Your task to perform on an android device: Clear all items from cart on ebay.com. Add dell alienware to the cart on ebay.com Image 0: 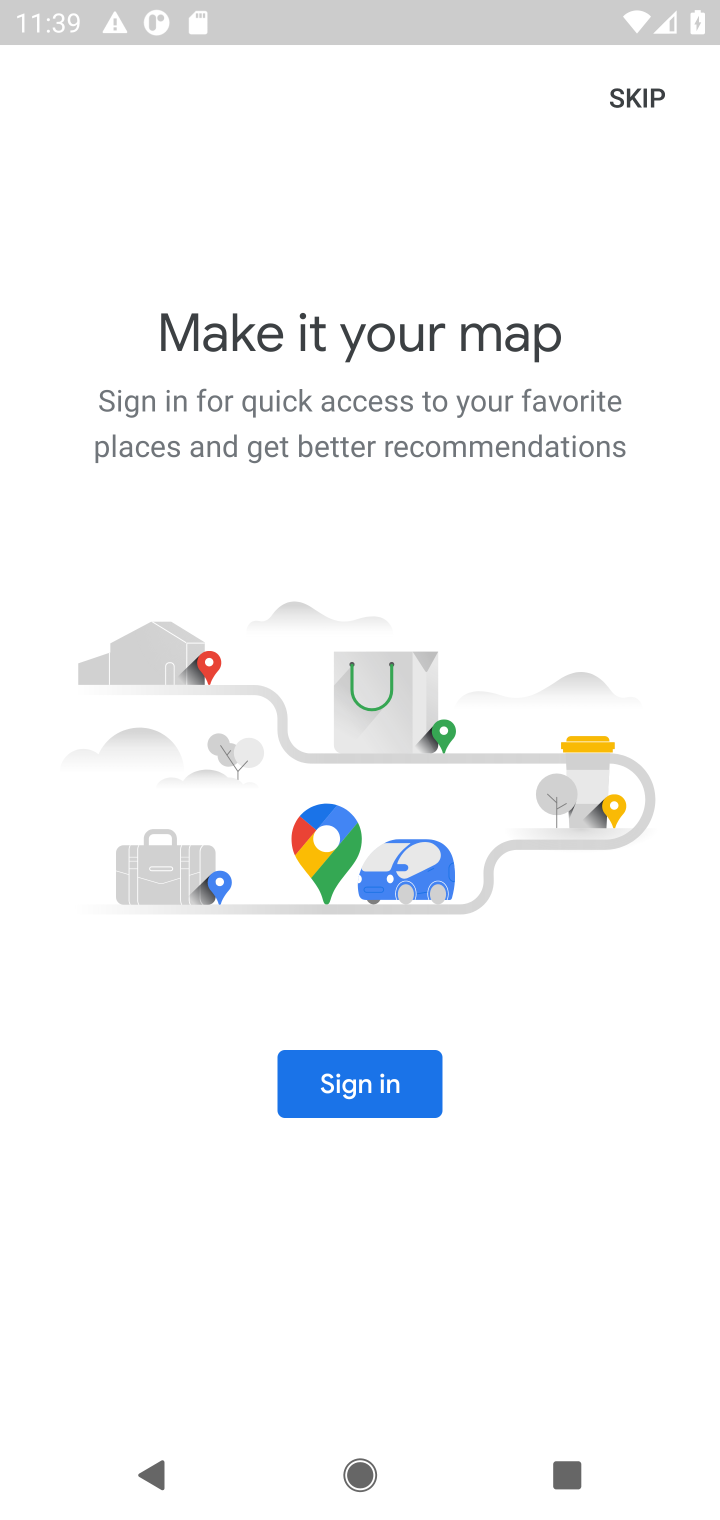
Step 0: press home button
Your task to perform on an android device: Clear all items from cart on ebay.com. Add dell alienware to the cart on ebay.com Image 1: 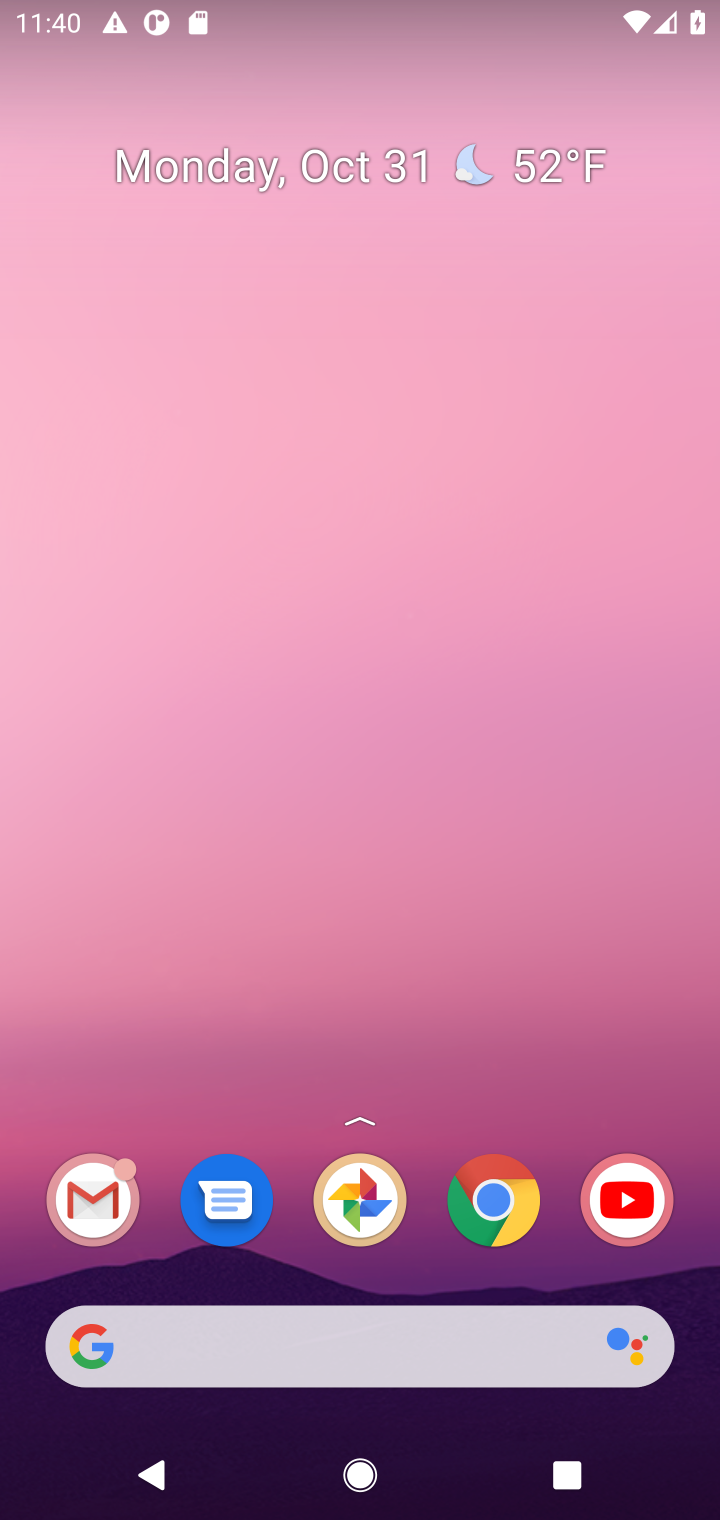
Step 1: click (506, 1201)
Your task to perform on an android device: Clear all items from cart on ebay.com. Add dell alienware to the cart on ebay.com Image 2: 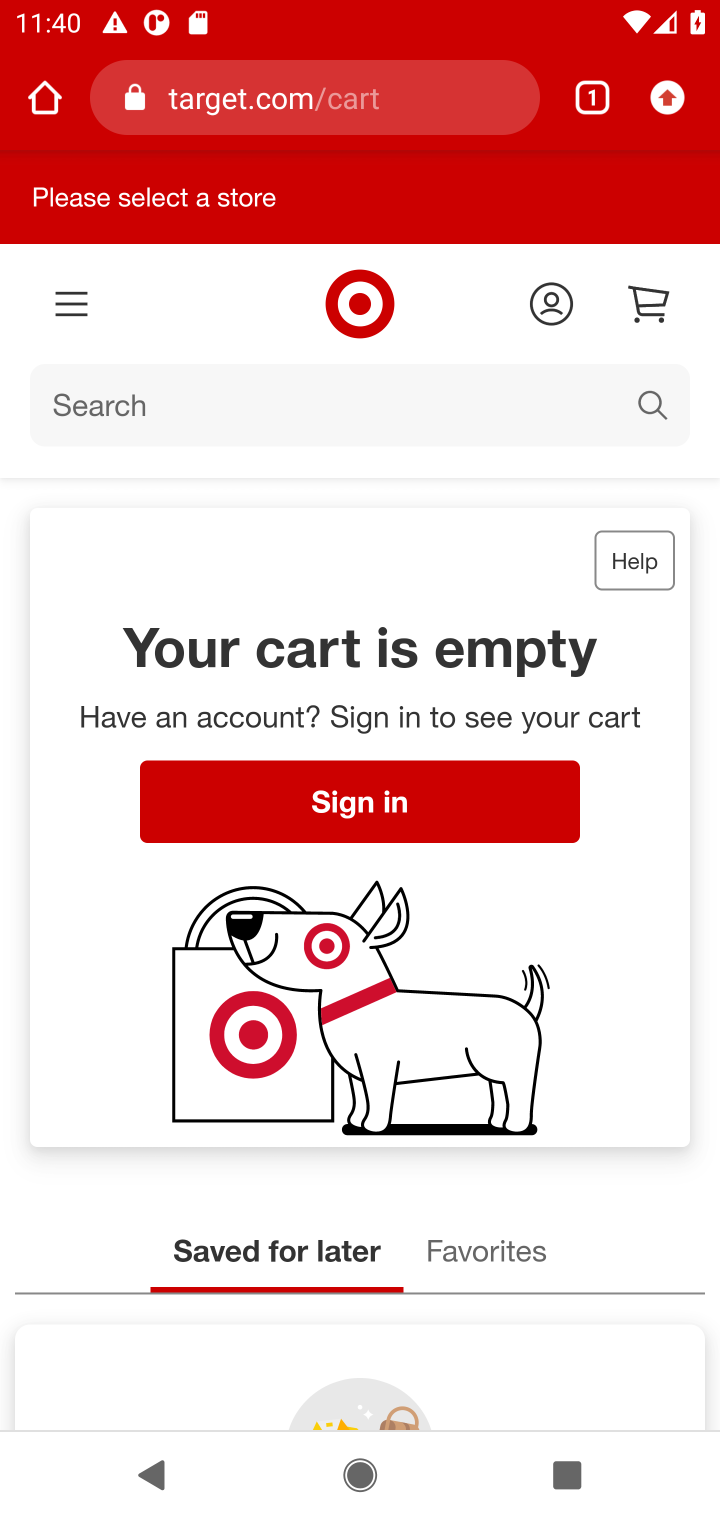
Step 2: click (316, 97)
Your task to perform on an android device: Clear all items from cart on ebay.com. Add dell alienware to the cart on ebay.com Image 3: 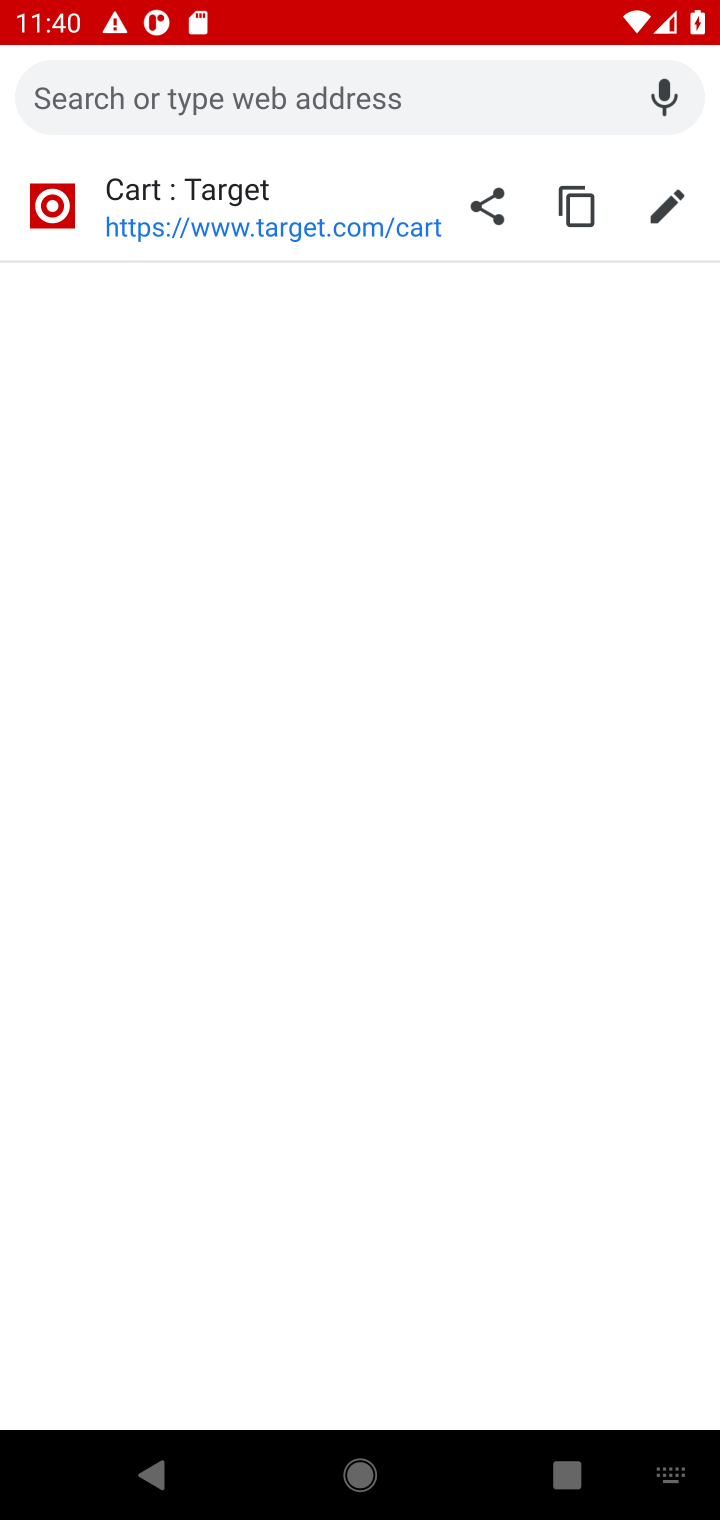
Step 3: type "ebay.com"
Your task to perform on an android device: Clear all items from cart on ebay.com. Add dell alienware to the cart on ebay.com Image 4: 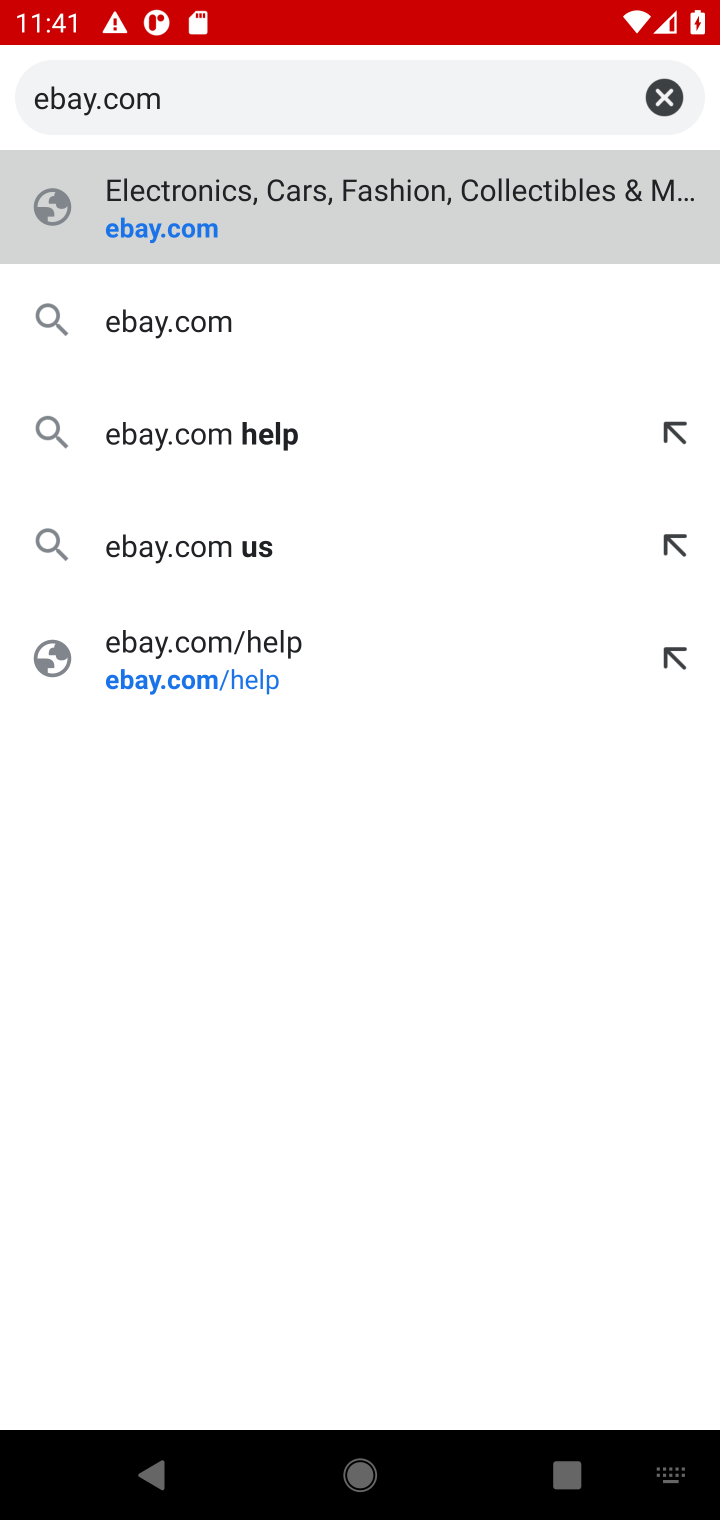
Step 4: click (127, 233)
Your task to perform on an android device: Clear all items from cart on ebay.com. Add dell alienware to the cart on ebay.com Image 5: 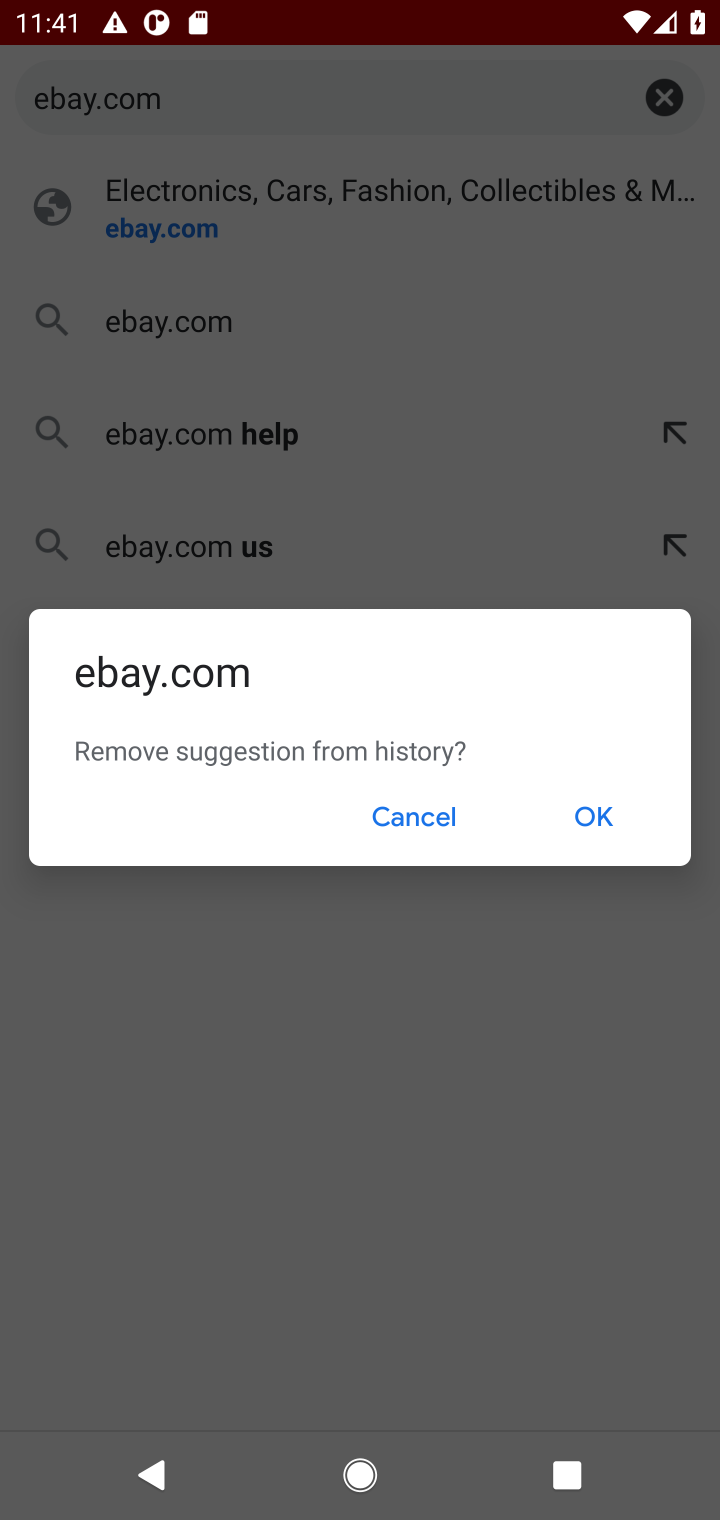
Step 5: click (413, 832)
Your task to perform on an android device: Clear all items from cart on ebay.com. Add dell alienware to the cart on ebay.com Image 6: 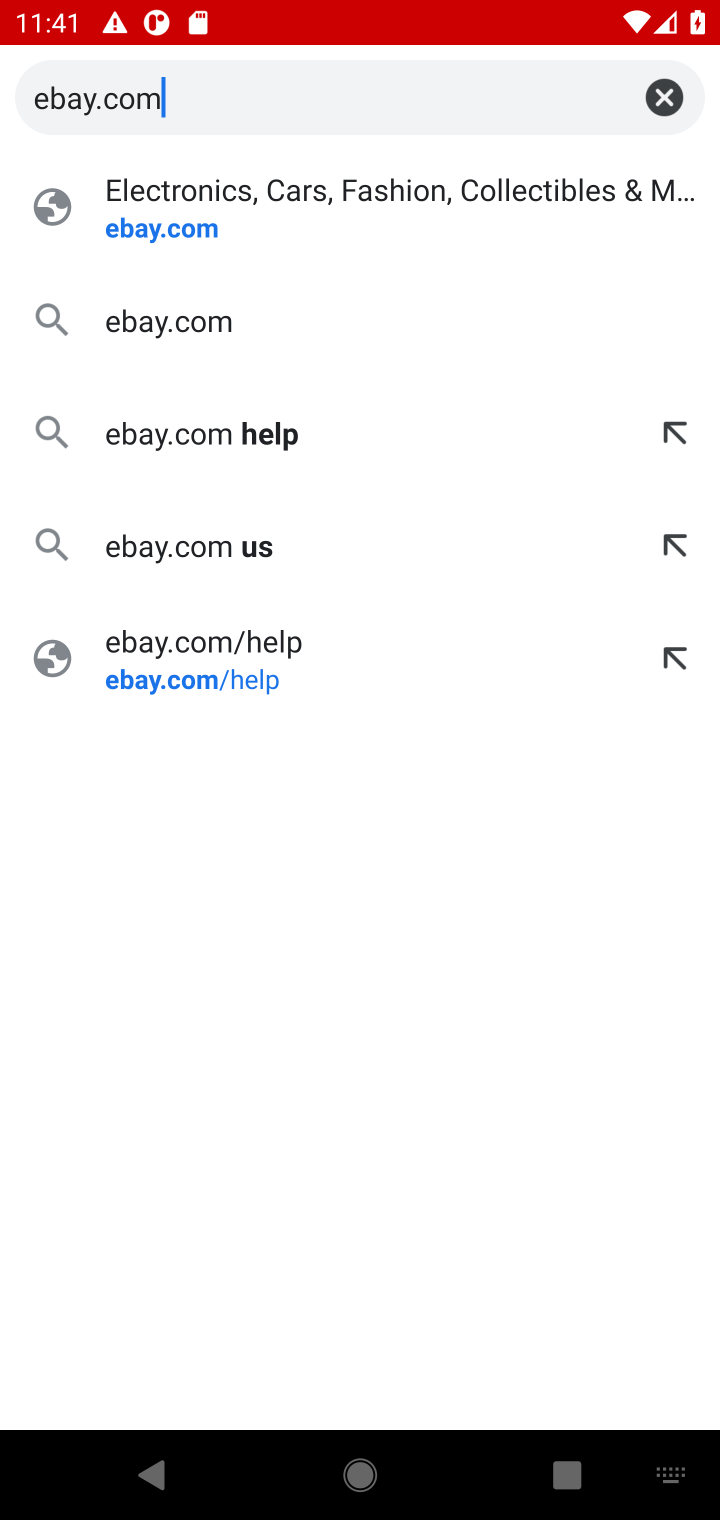
Step 6: click (155, 221)
Your task to perform on an android device: Clear all items from cart on ebay.com. Add dell alienware to the cart on ebay.com Image 7: 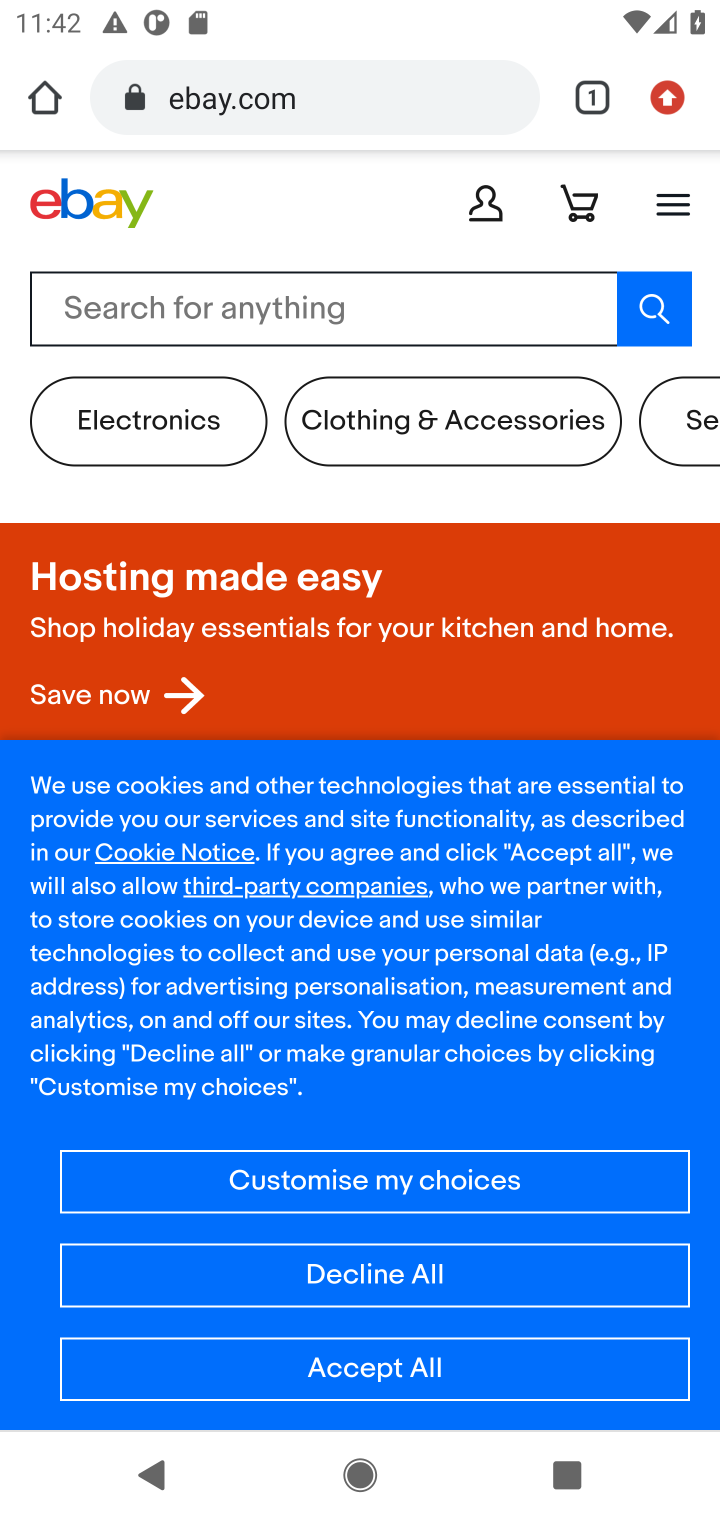
Step 7: click (580, 203)
Your task to perform on an android device: Clear all items from cart on ebay.com. Add dell alienware to the cart on ebay.com Image 8: 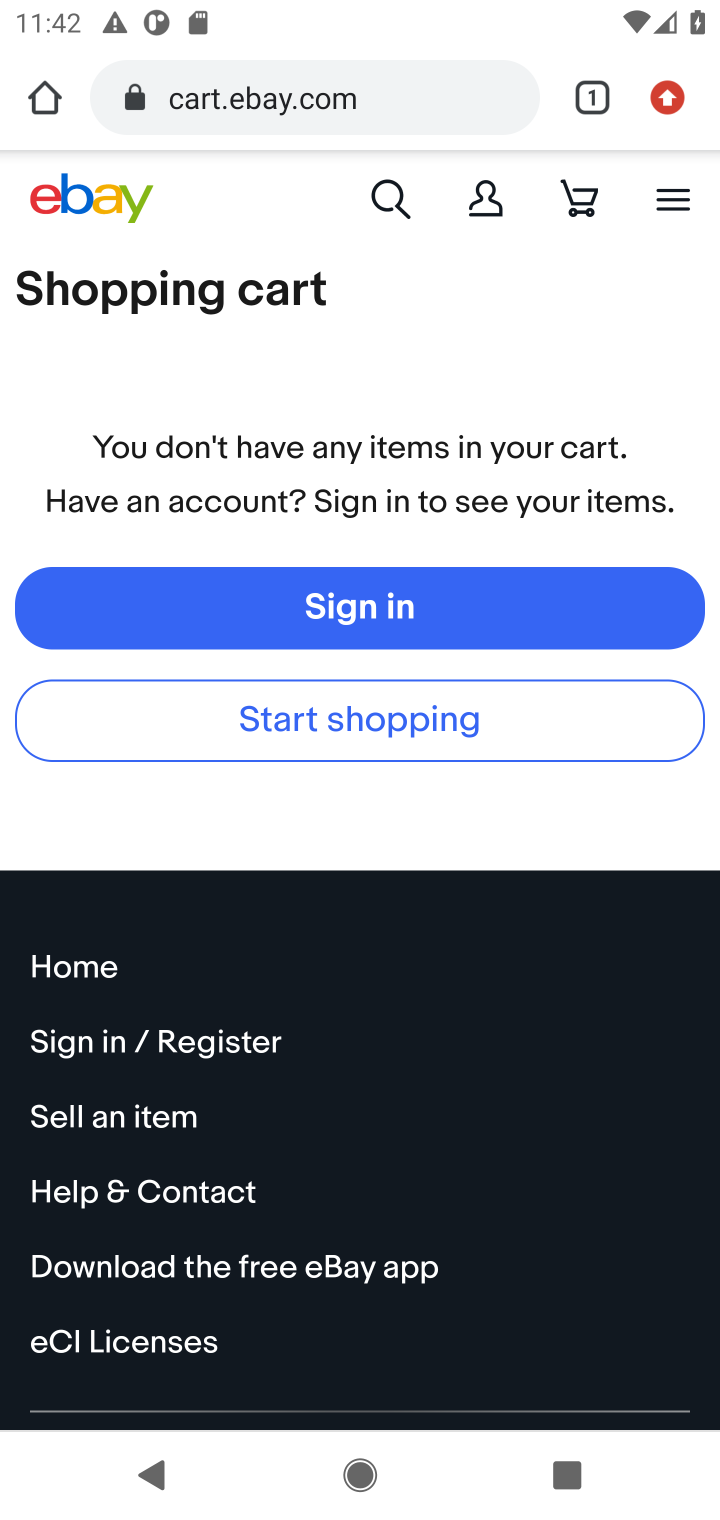
Step 8: click (386, 209)
Your task to perform on an android device: Clear all items from cart on ebay.com. Add dell alienware to the cart on ebay.com Image 9: 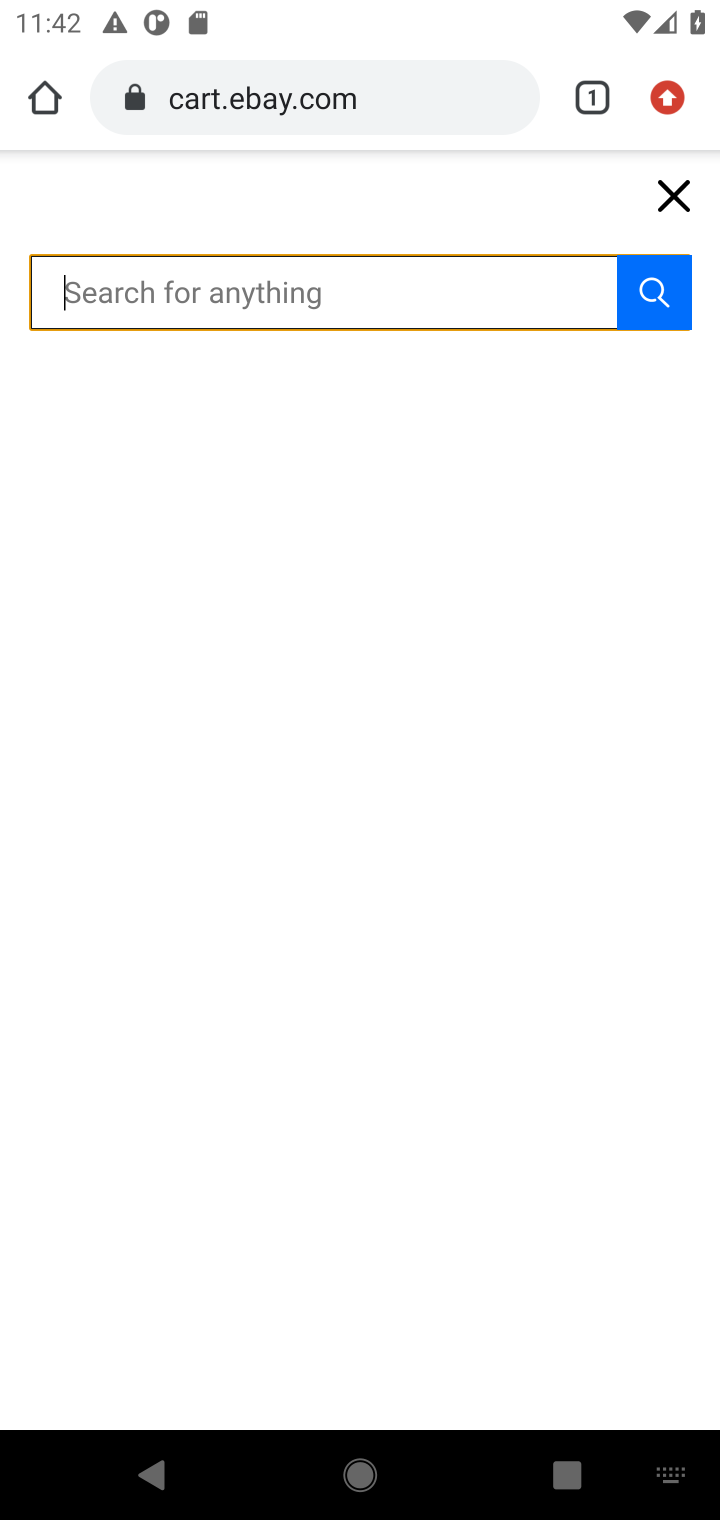
Step 9: type "dell alienware"
Your task to perform on an android device: Clear all items from cart on ebay.com. Add dell alienware to the cart on ebay.com Image 10: 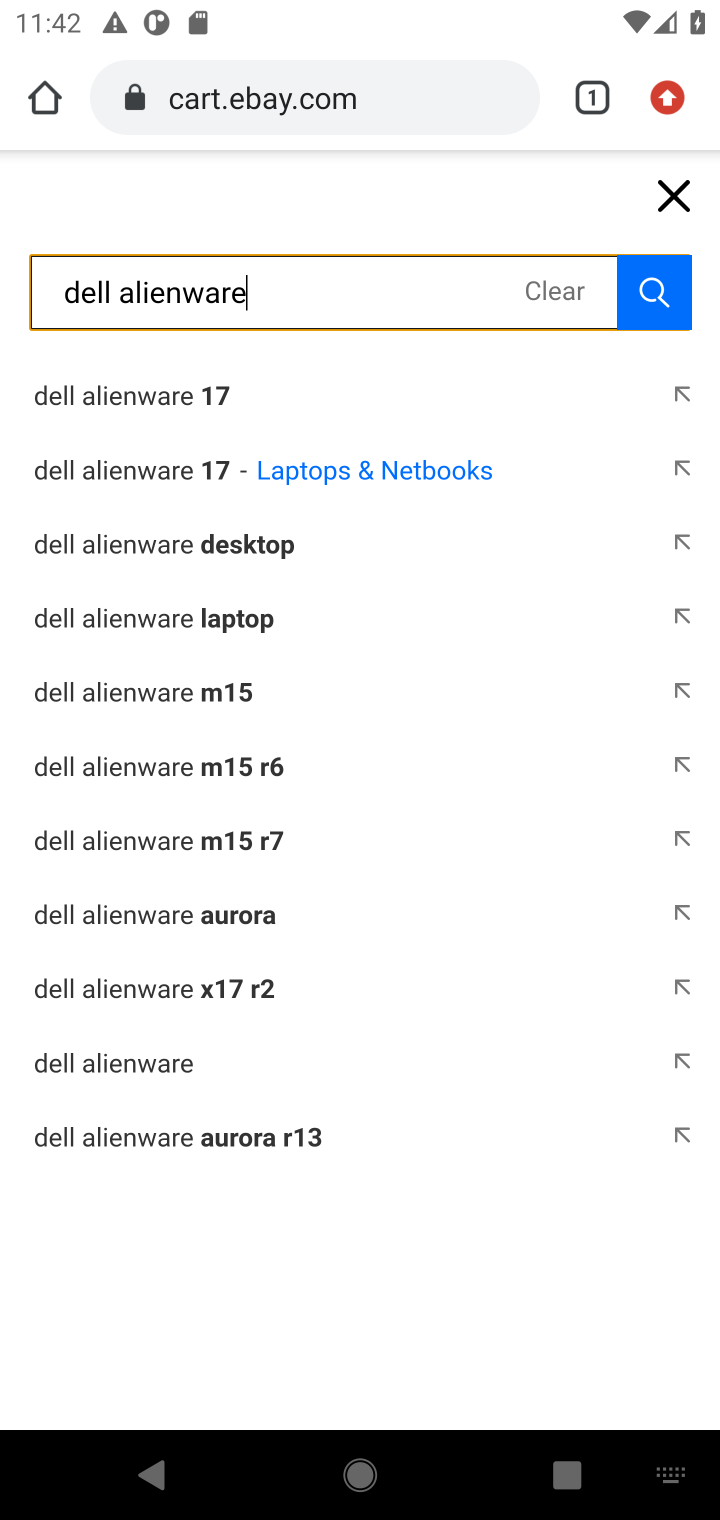
Step 10: click (652, 288)
Your task to perform on an android device: Clear all items from cart on ebay.com. Add dell alienware to the cart on ebay.com Image 11: 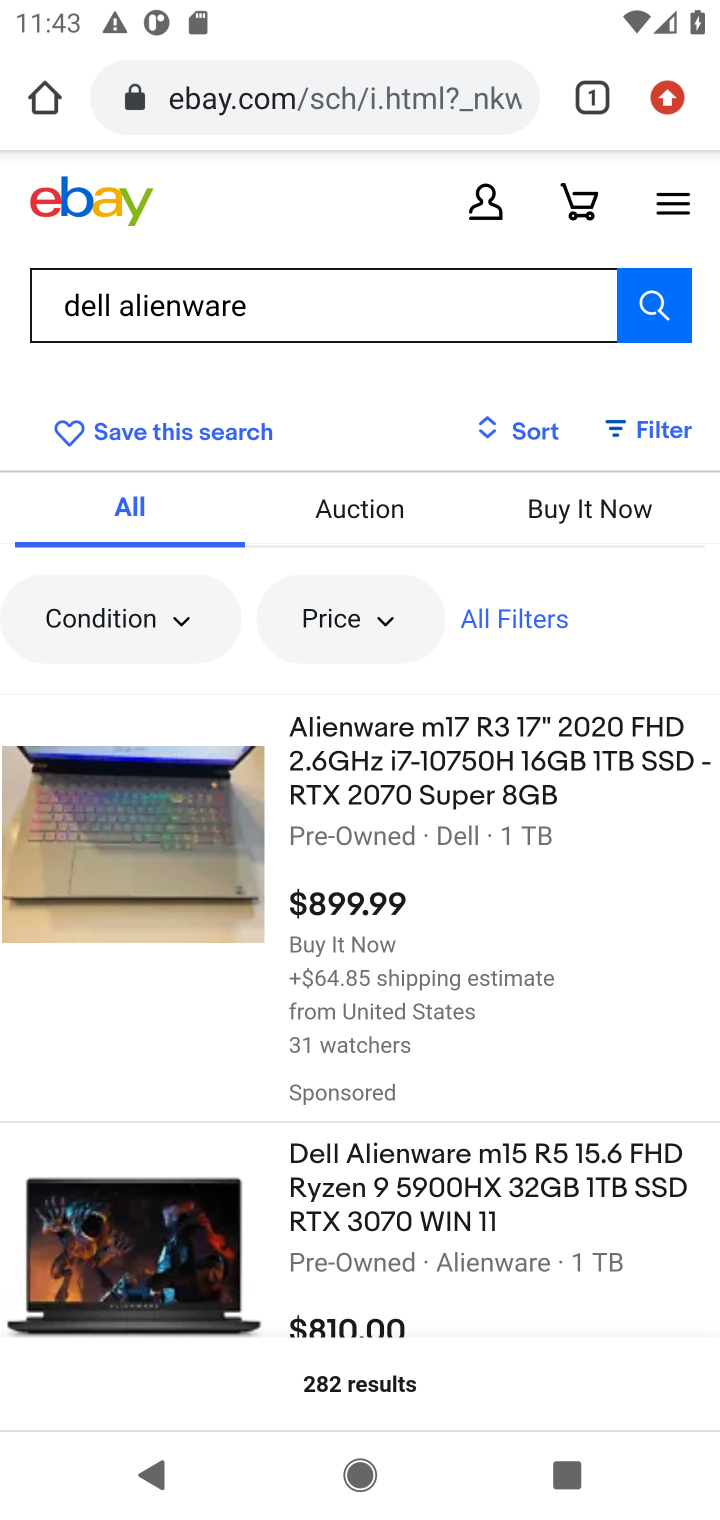
Step 11: click (322, 1247)
Your task to perform on an android device: Clear all items from cart on ebay.com. Add dell alienware to the cart on ebay.com Image 12: 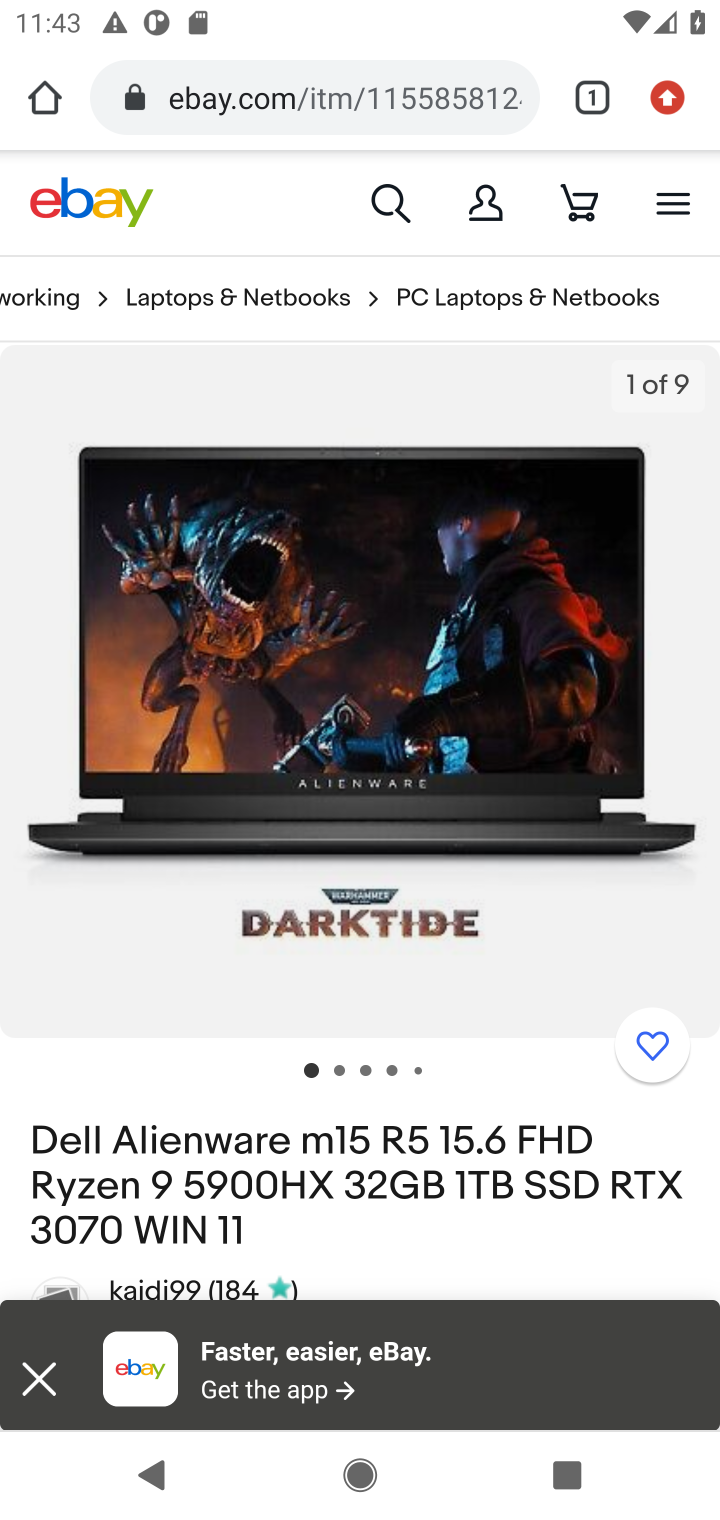
Step 12: drag from (322, 1247) to (408, 538)
Your task to perform on an android device: Clear all items from cart on ebay.com. Add dell alienware to the cart on ebay.com Image 13: 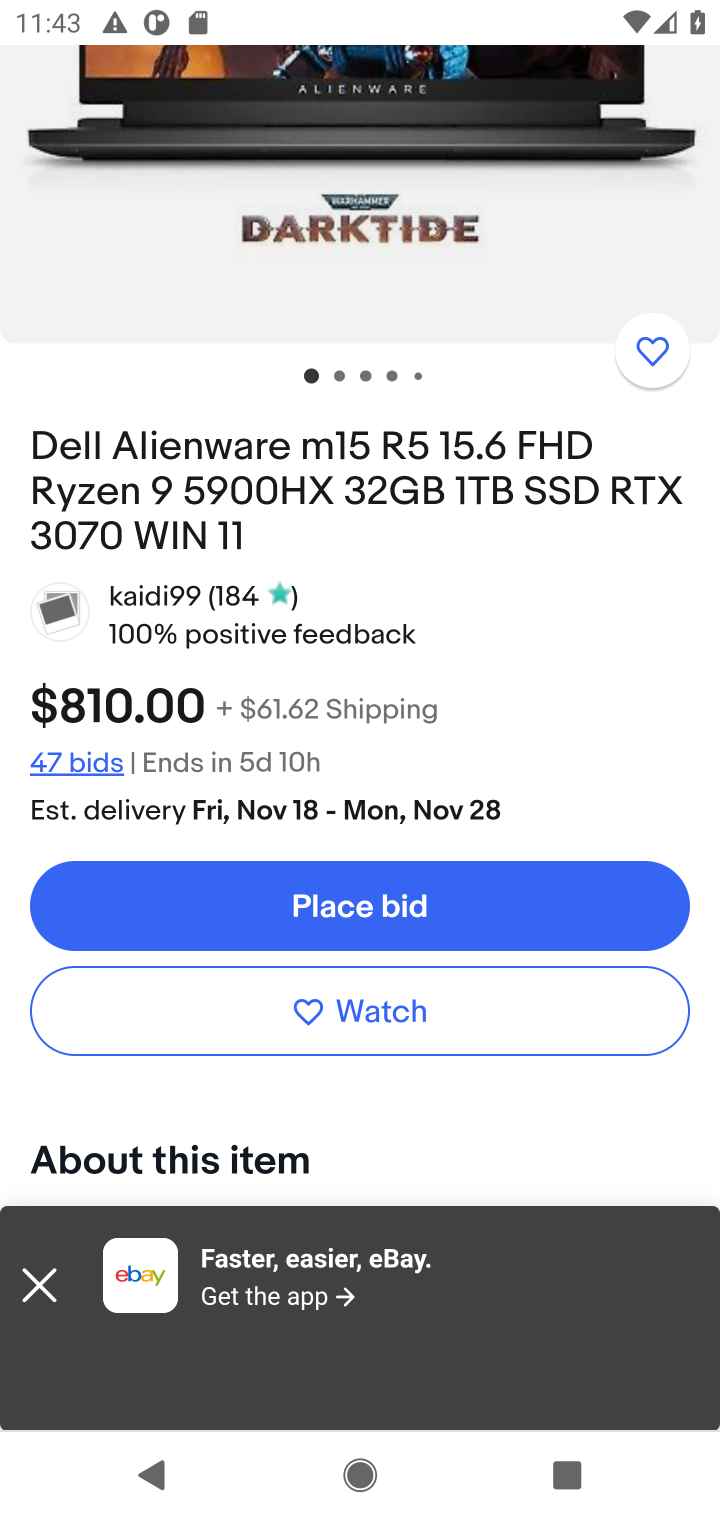
Step 13: drag from (295, 1066) to (344, 634)
Your task to perform on an android device: Clear all items from cart on ebay.com. Add dell alienware to the cart on ebay.com Image 14: 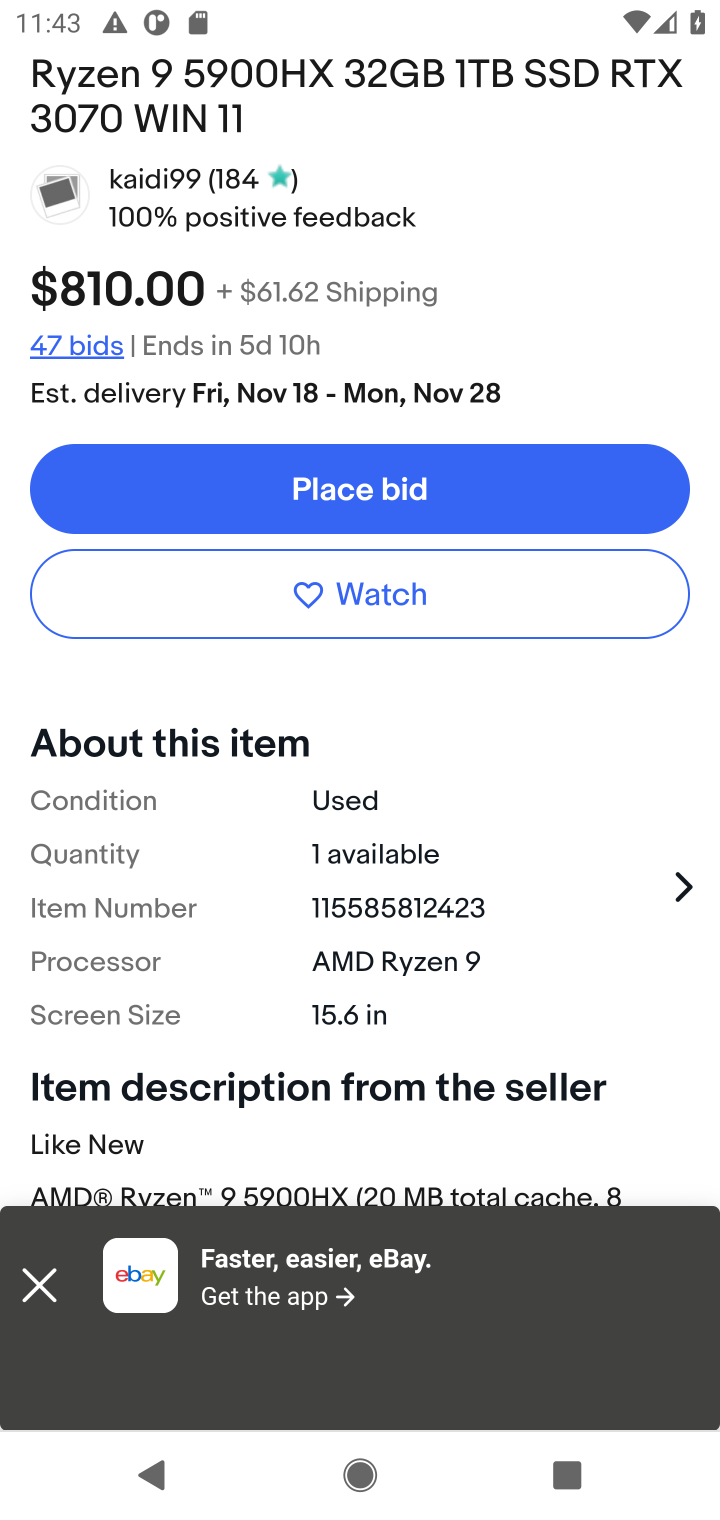
Step 14: drag from (268, 962) to (292, 380)
Your task to perform on an android device: Clear all items from cart on ebay.com. Add dell alienware to the cart on ebay.com Image 15: 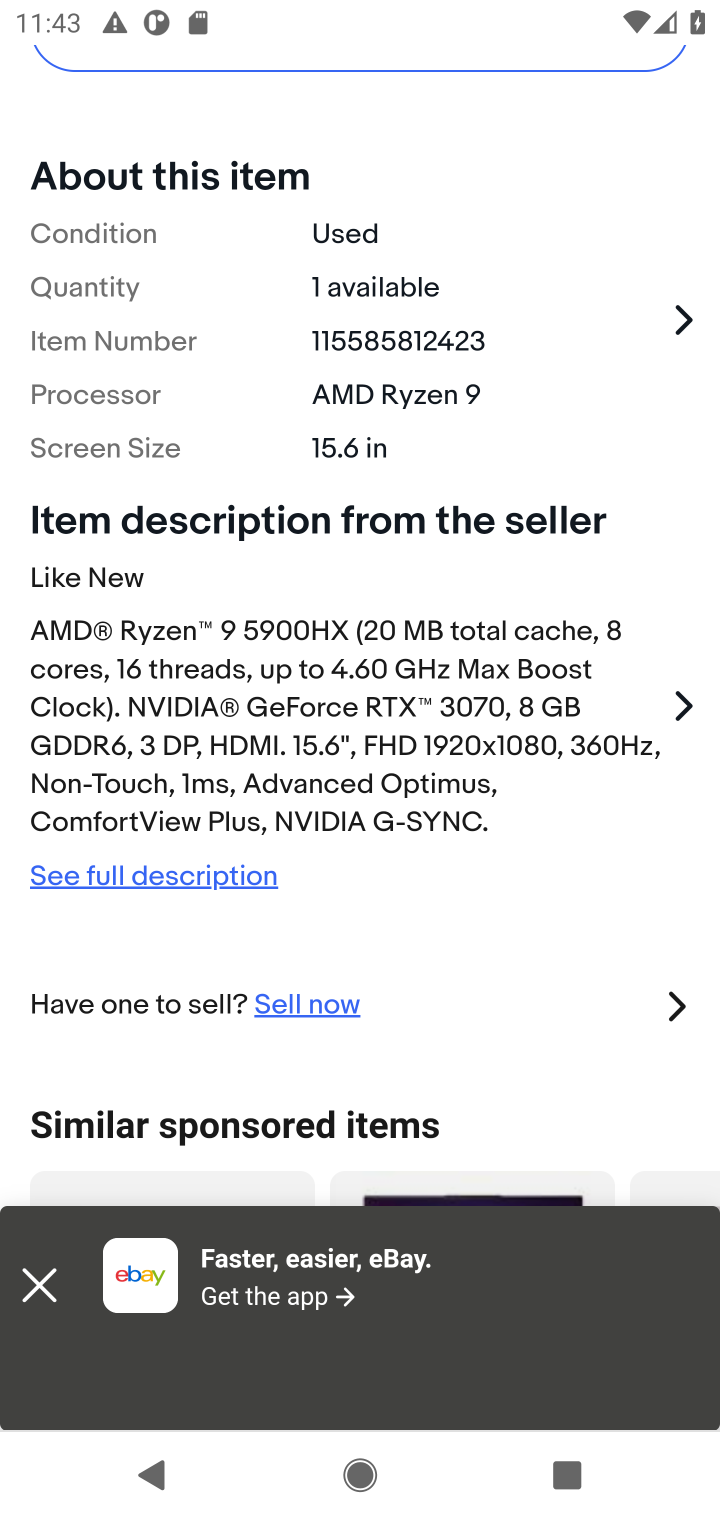
Step 15: drag from (249, 661) to (221, 1229)
Your task to perform on an android device: Clear all items from cart on ebay.com. Add dell alienware to the cart on ebay.com Image 16: 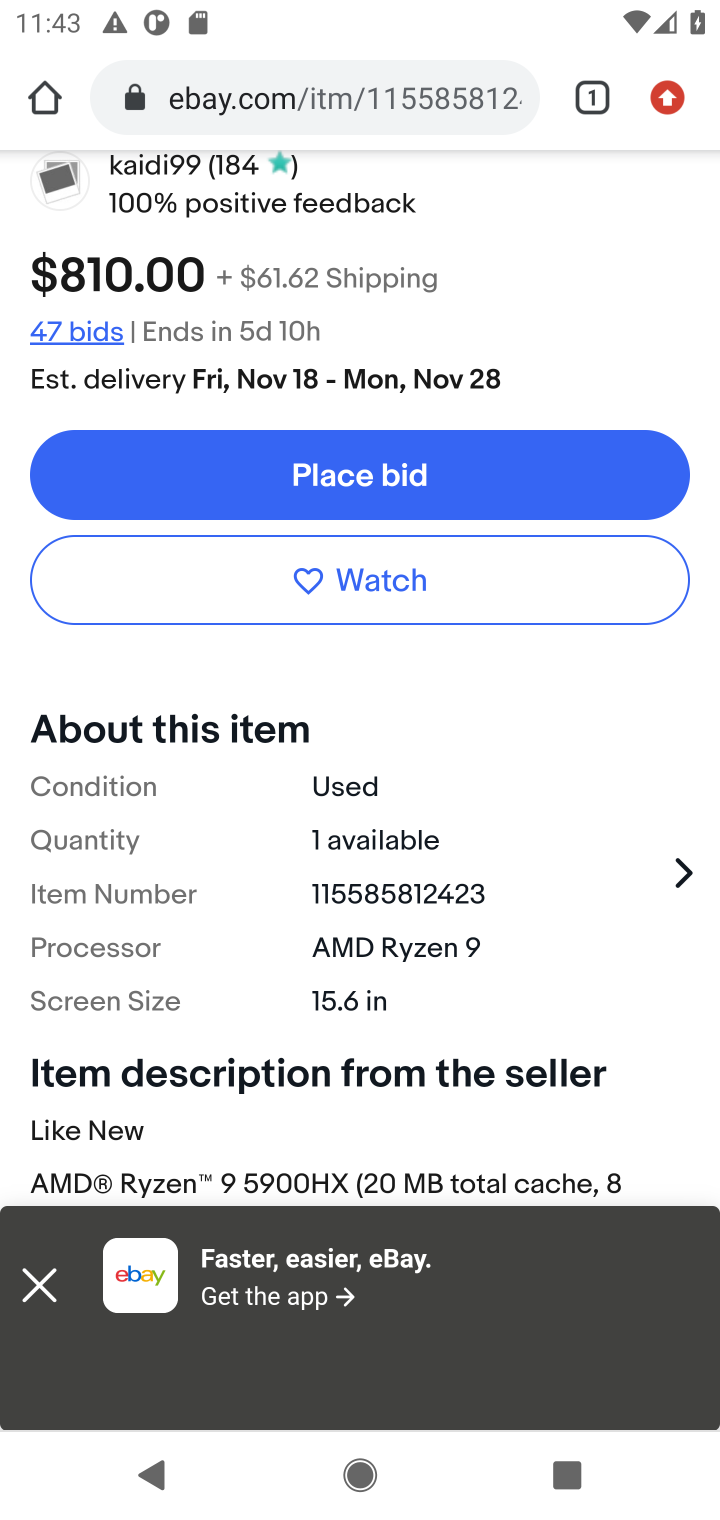
Step 16: drag from (386, 240) to (337, 905)
Your task to perform on an android device: Clear all items from cart on ebay.com. Add dell alienware to the cart on ebay.com Image 17: 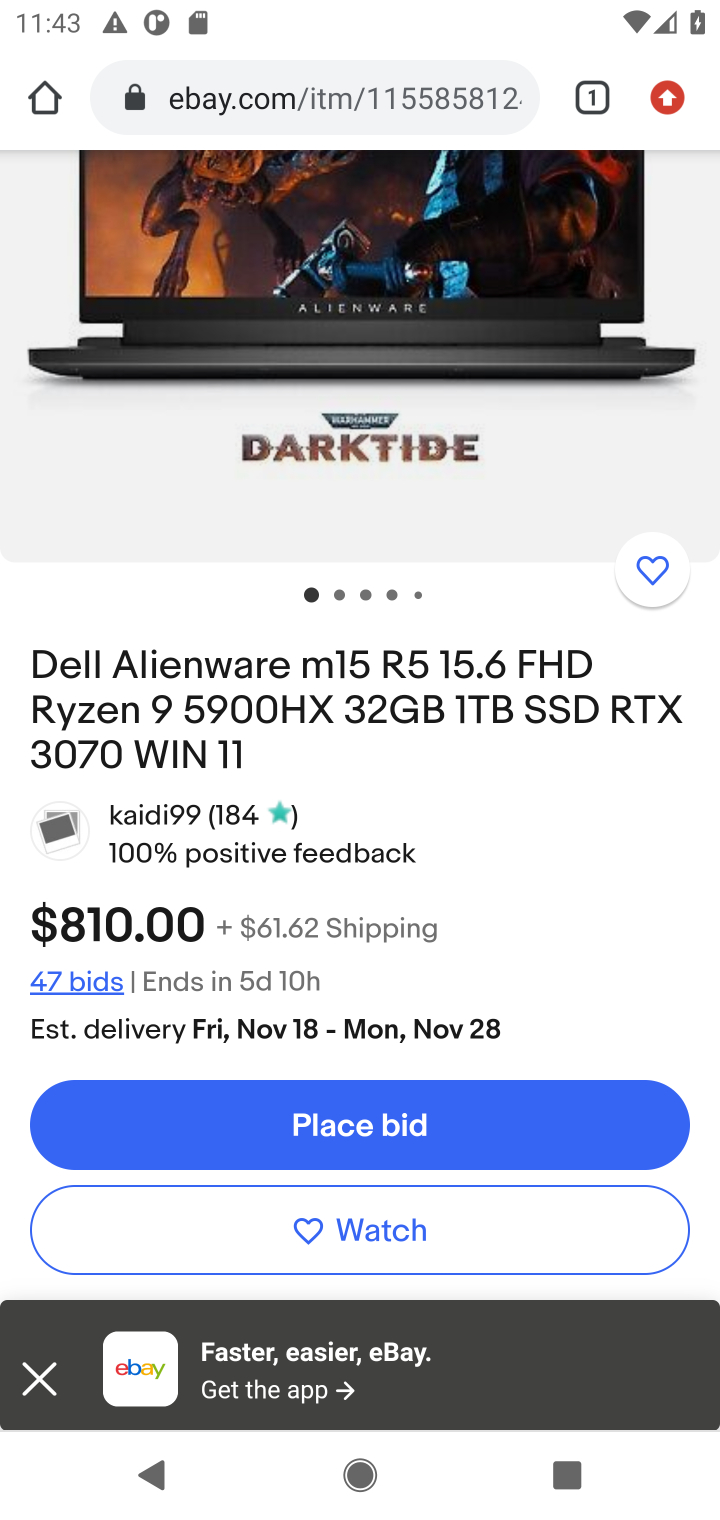
Step 17: drag from (341, 765) to (317, 1048)
Your task to perform on an android device: Clear all items from cart on ebay.com. Add dell alienware to the cart on ebay.com Image 18: 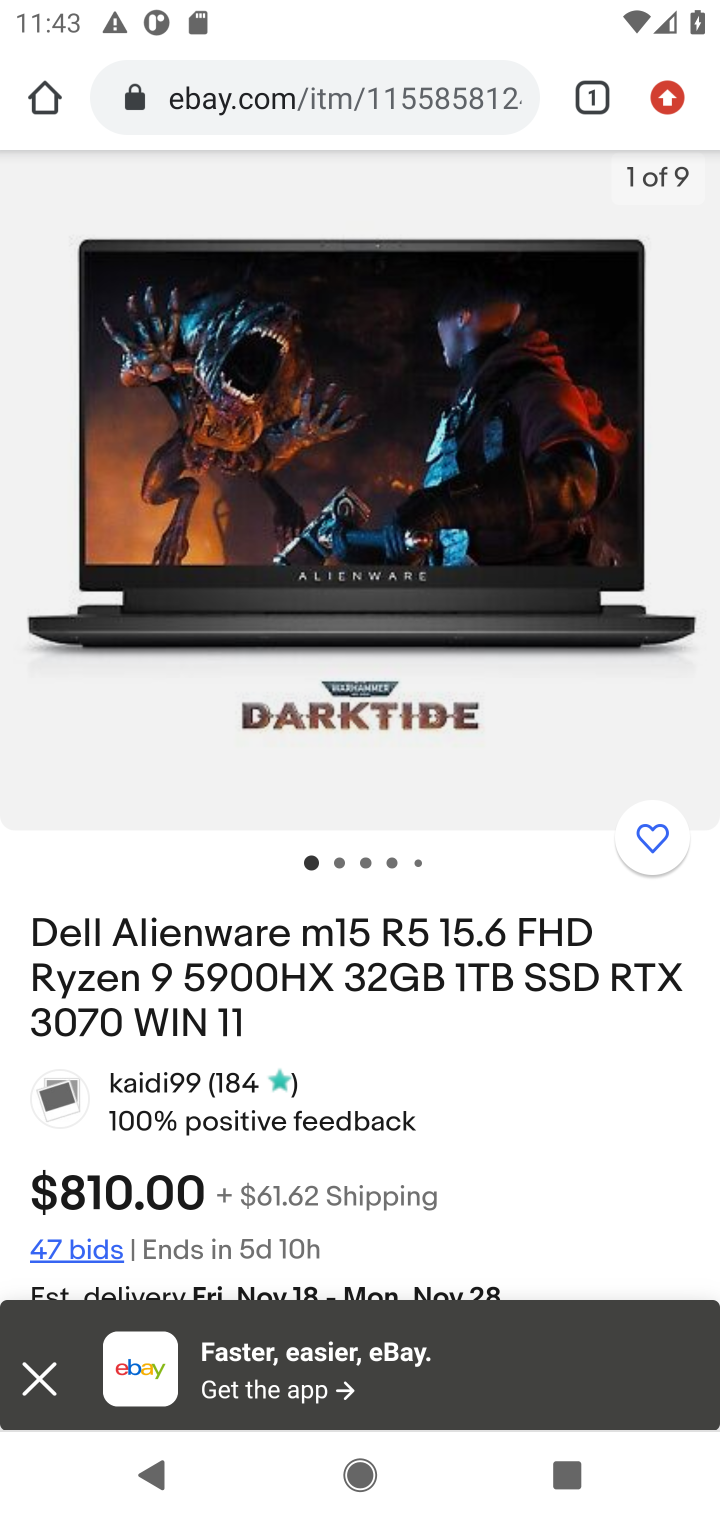
Step 18: click (342, 1089)
Your task to perform on an android device: Clear all items from cart on ebay.com. Add dell alienware to the cart on ebay.com Image 19: 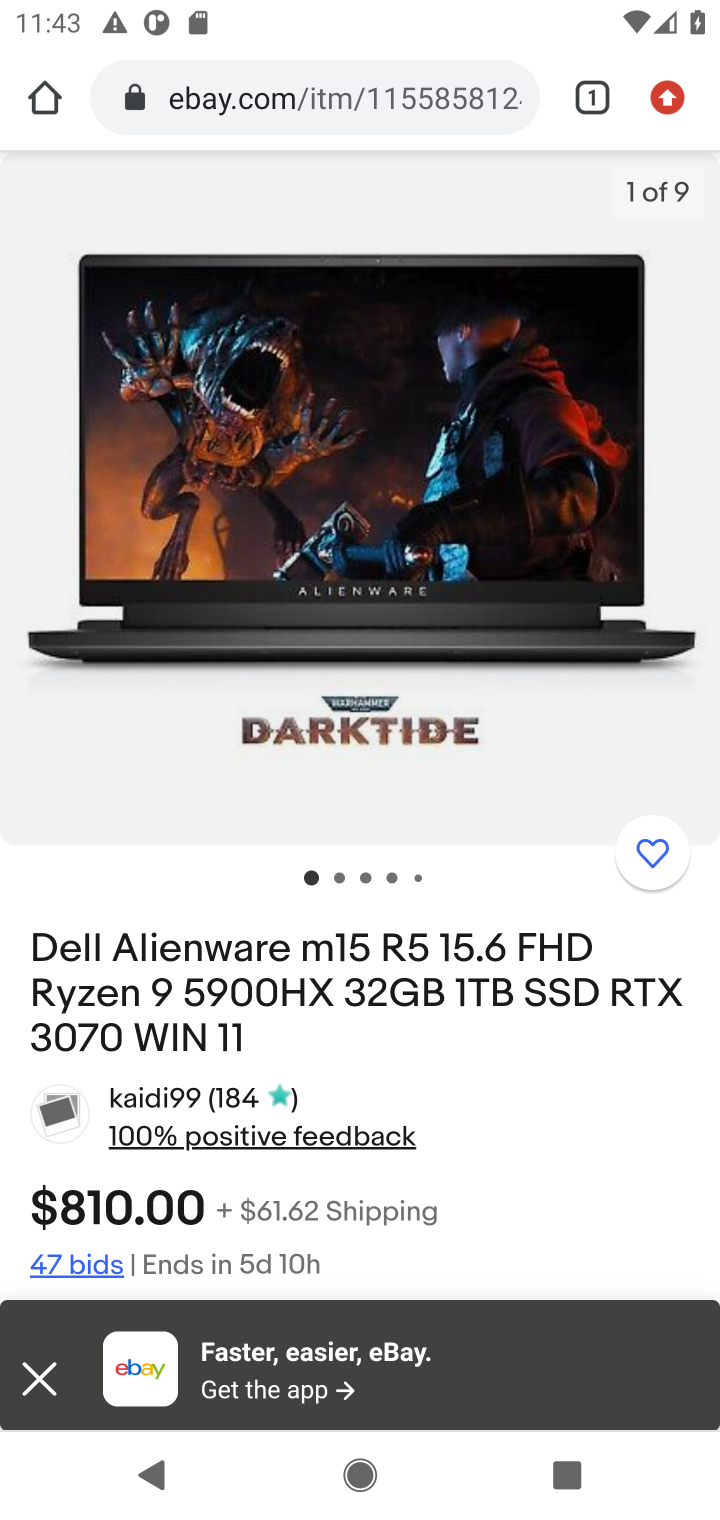
Step 19: press back button
Your task to perform on an android device: Clear all items from cart on ebay.com. Add dell alienware to the cart on ebay.com Image 20: 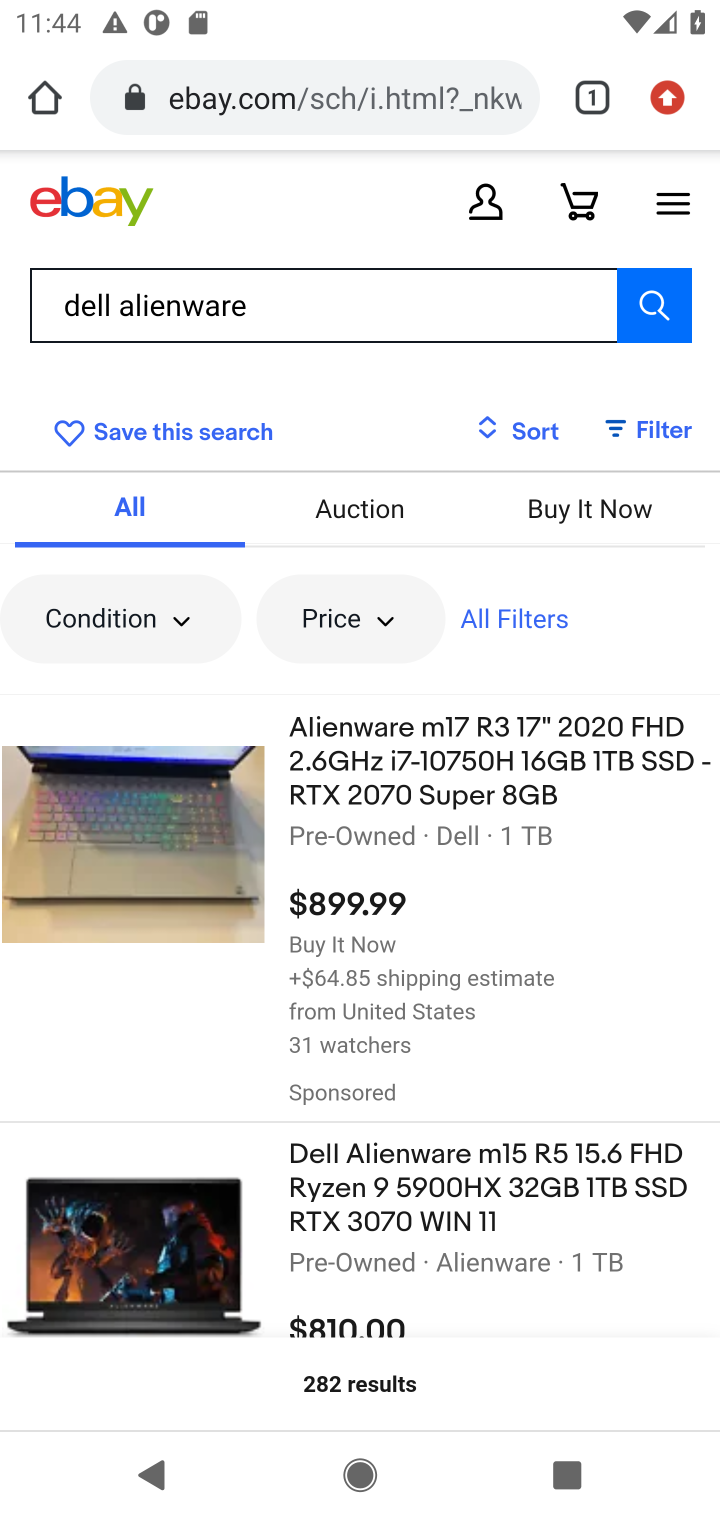
Step 20: click (188, 848)
Your task to perform on an android device: Clear all items from cart on ebay.com. Add dell alienware to the cart on ebay.com Image 21: 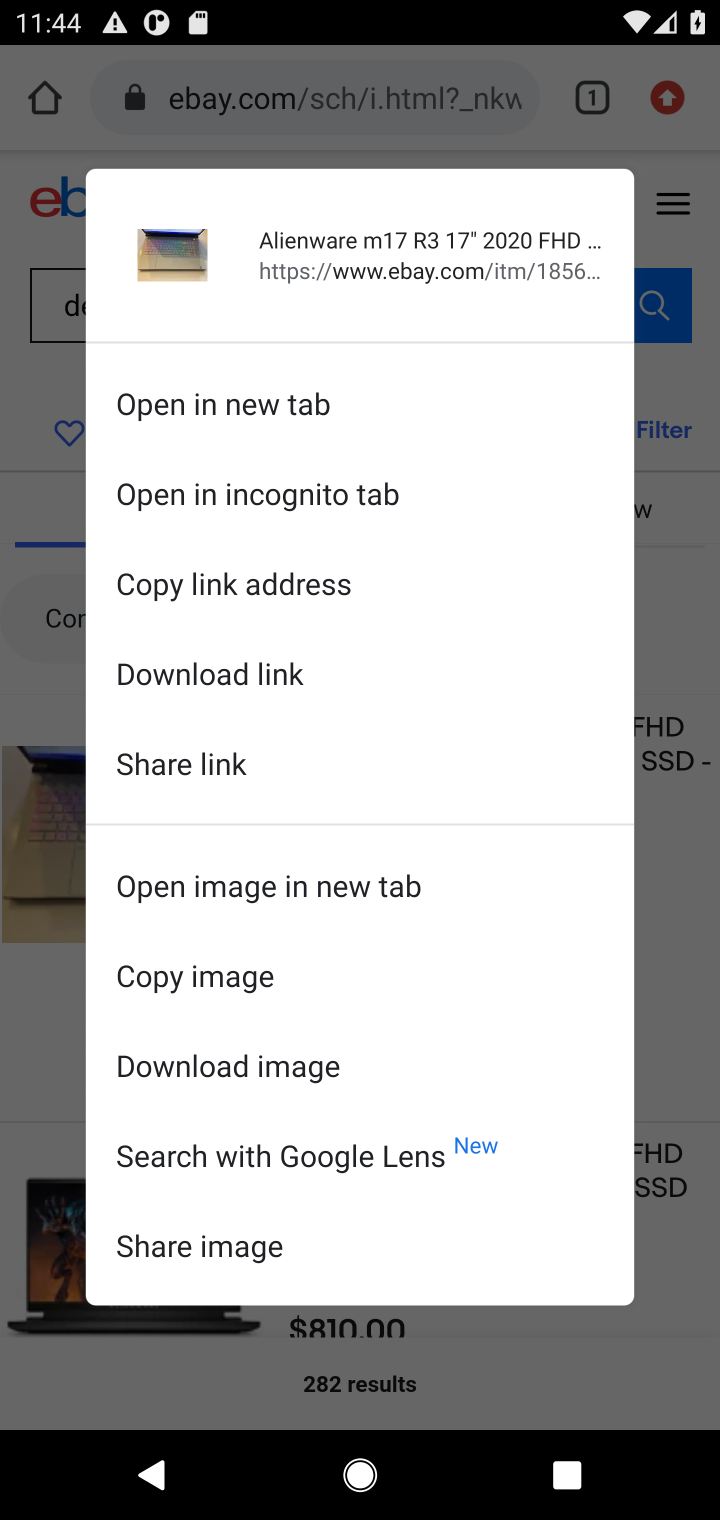
Step 21: click (53, 822)
Your task to perform on an android device: Clear all items from cart on ebay.com. Add dell alienware to the cart on ebay.com Image 22: 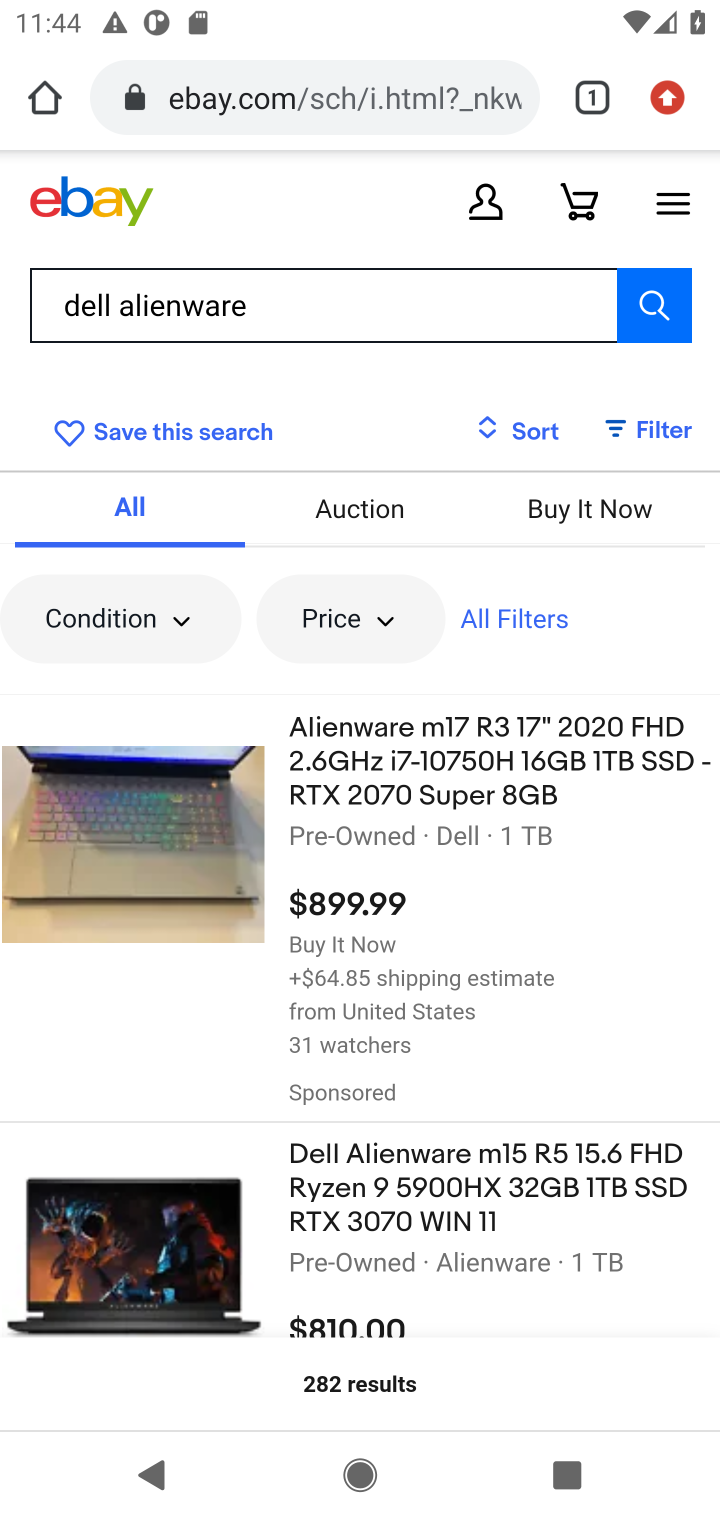
Step 22: click (303, 816)
Your task to perform on an android device: Clear all items from cart on ebay.com. Add dell alienware to the cart on ebay.com Image 23: 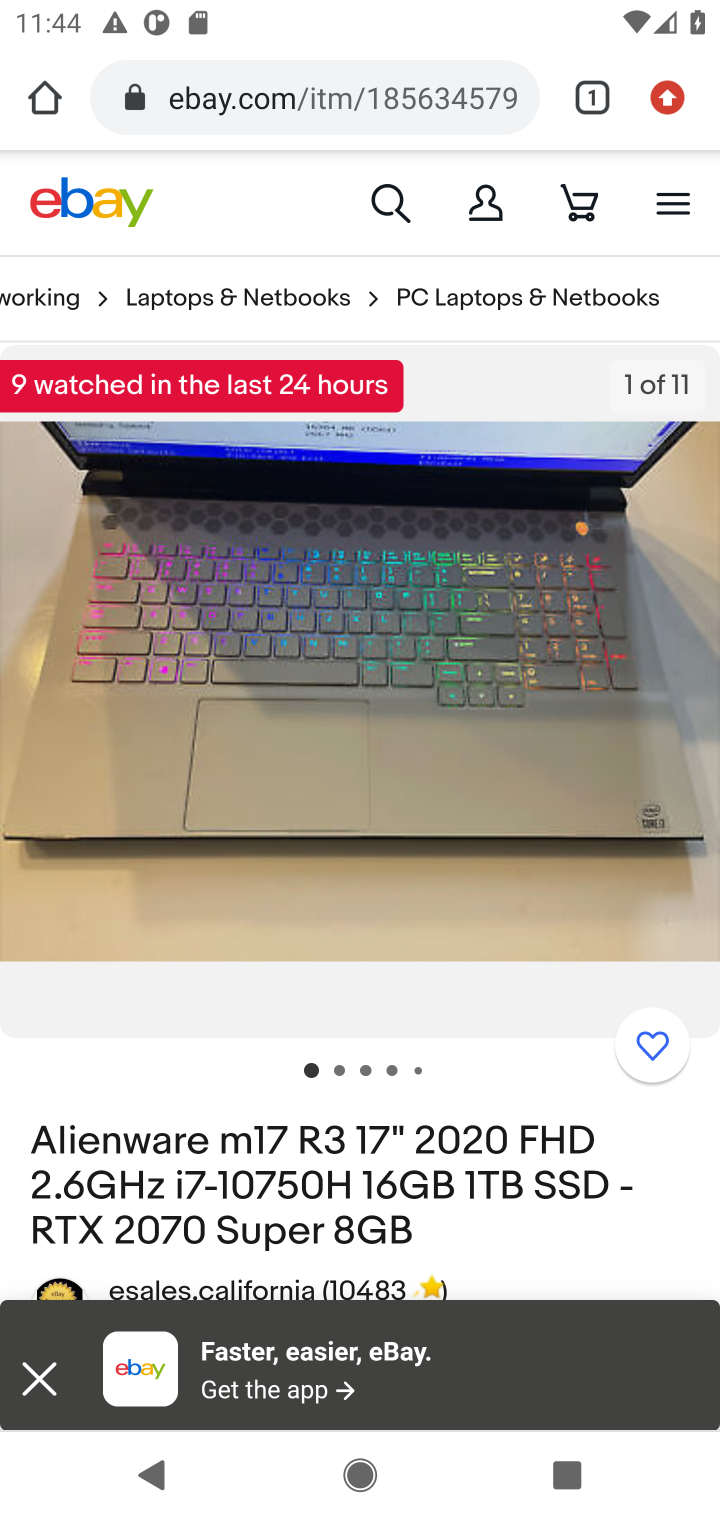
Step 23: drag from (307, 1172) to (338, 780)
Your task to perform on an android device: Clear all items from cart on ebay.com. Add dell alienware to the cart on ebay.com Image 24: 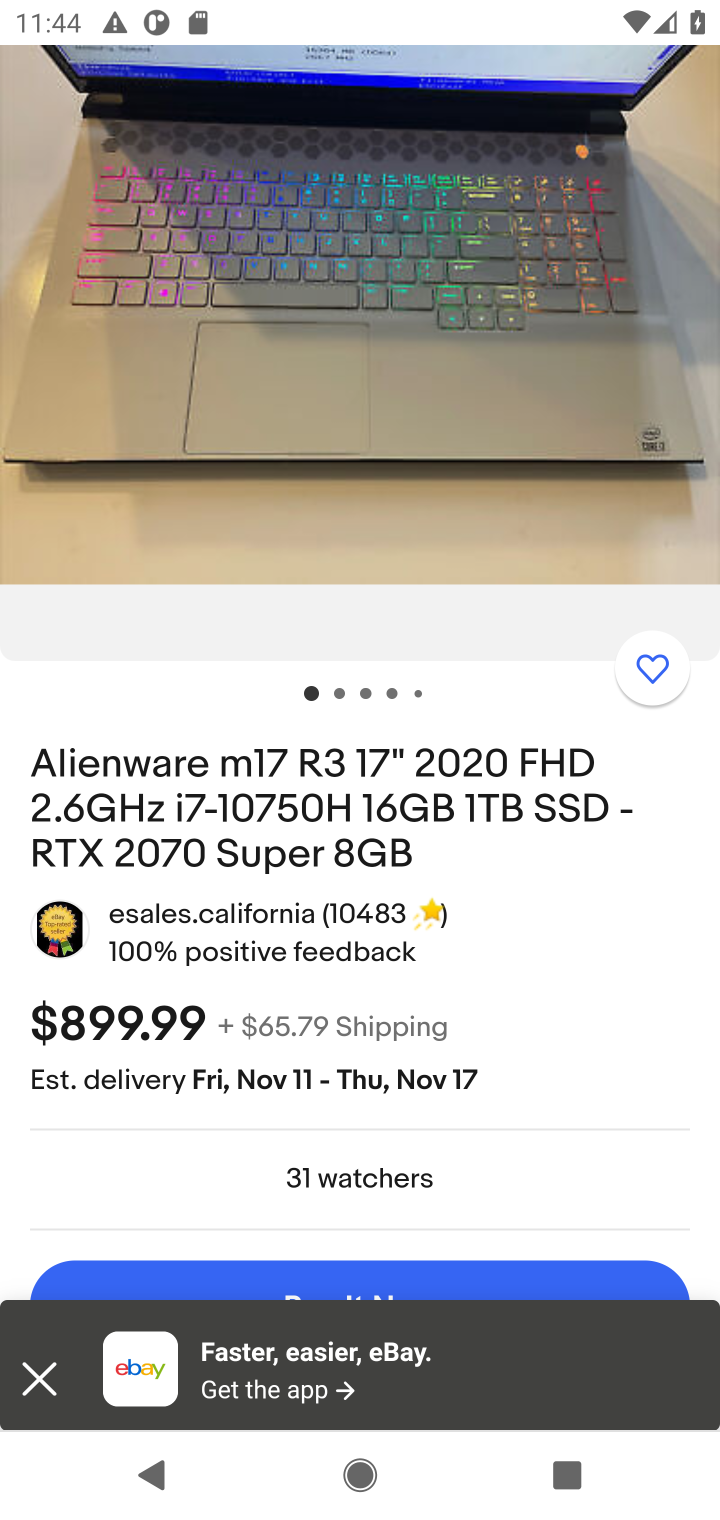
Step 24: drag from (319, 979) to (319, 708)
Your task to perform on an android device: Clear all items from cart on ebay.com. Add dell alienware to the cart on ebay.com Image 25: 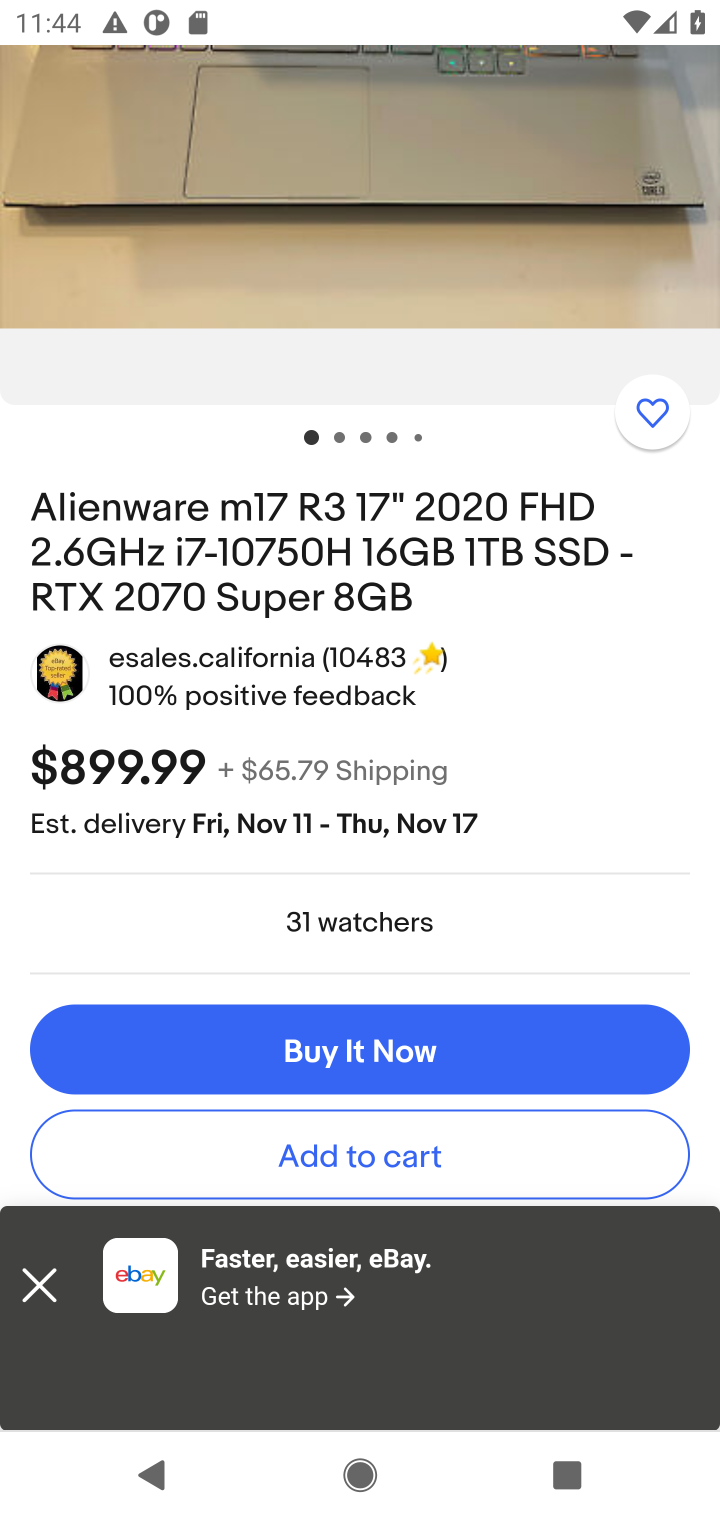
Step 25: drag from (292, 886) to (304, 657)
Your task to perform on an android device: Clear all items from cart on ebay.com. Add dell alienware to the cart on ebay.com Image 26: 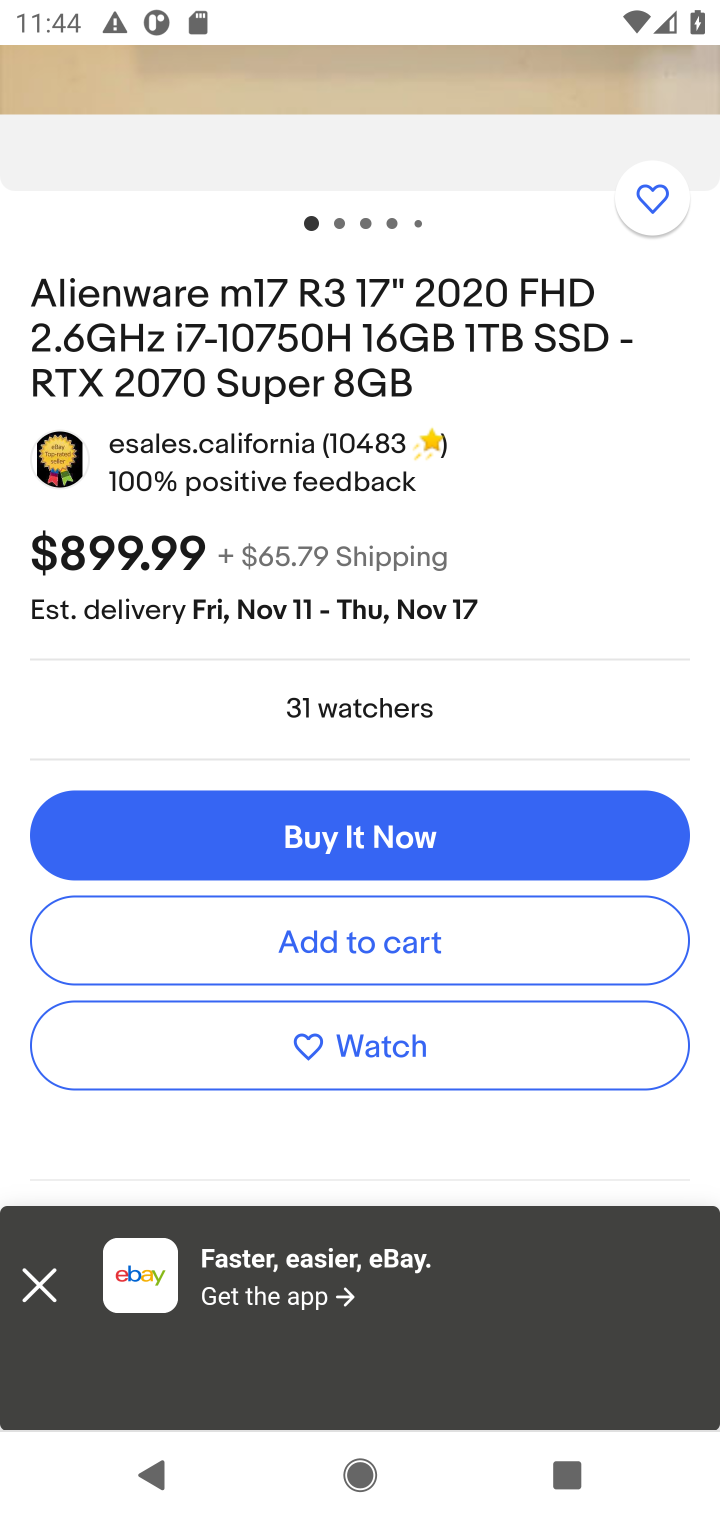
Step 26: drag from (352, 448) to (318, 891)
Your task to perform on an android device: Clear all items from cart on ebay.com. Add dell alienware to the cart on ebay.com Image 27: 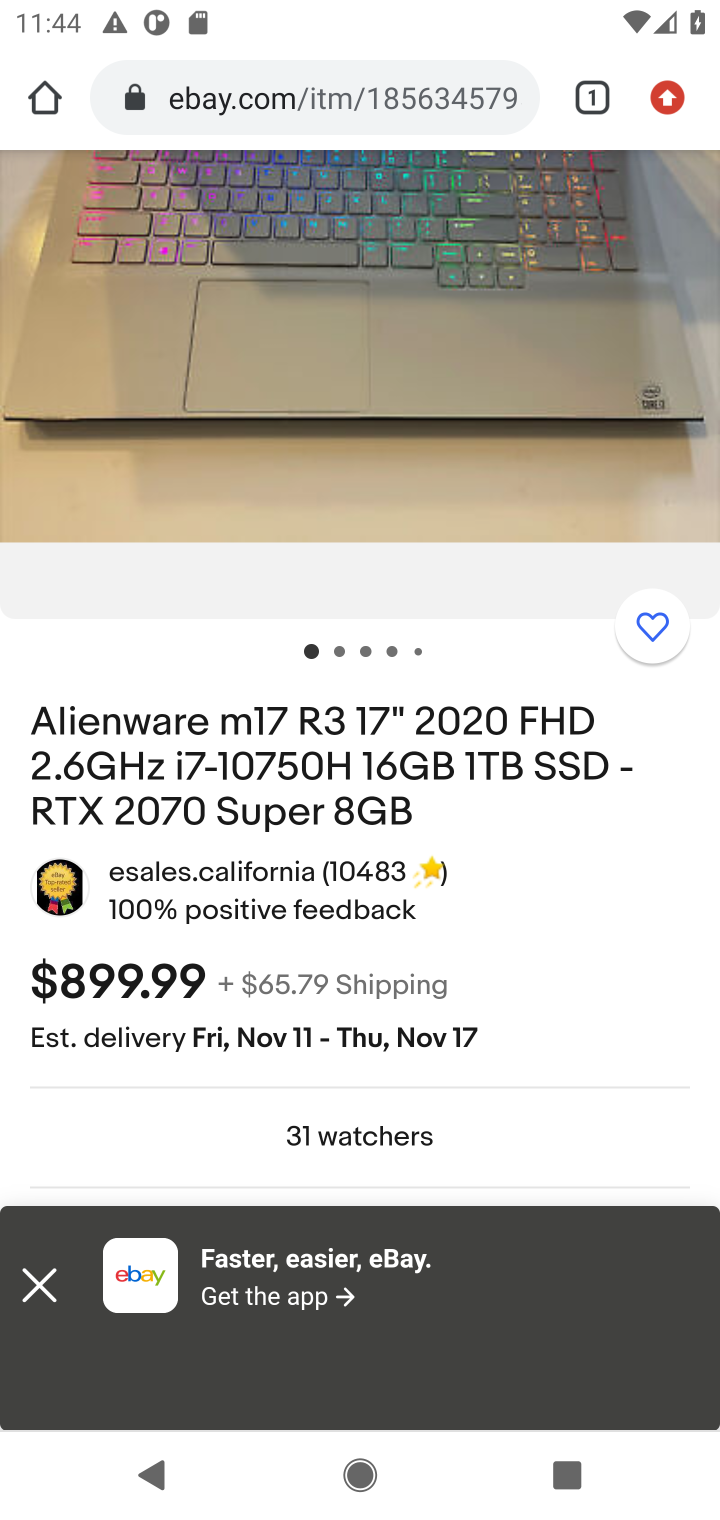
Step 27: drag from (393, 569) to (341, 918)
Your task to perform on an android device: Clear all items from cart on ebay.com. Add dell alienware to the cart on ebay.com Image 28: 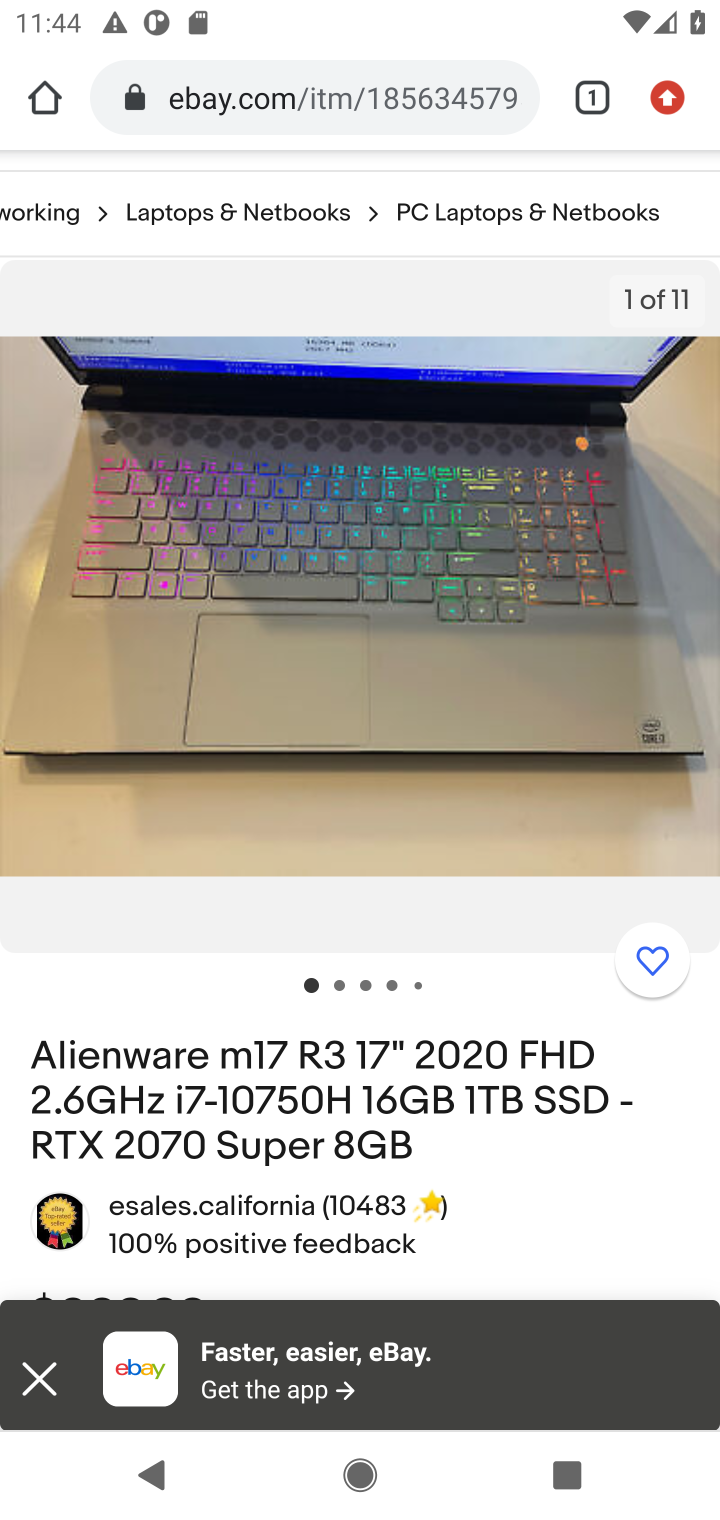
Step 28: drag from (472, 815) to (409, 1165)
Your task to perform on an android device: Clear all items from cart on ebay.com. Add dell alienware to the cart on ebay.com Image 29: 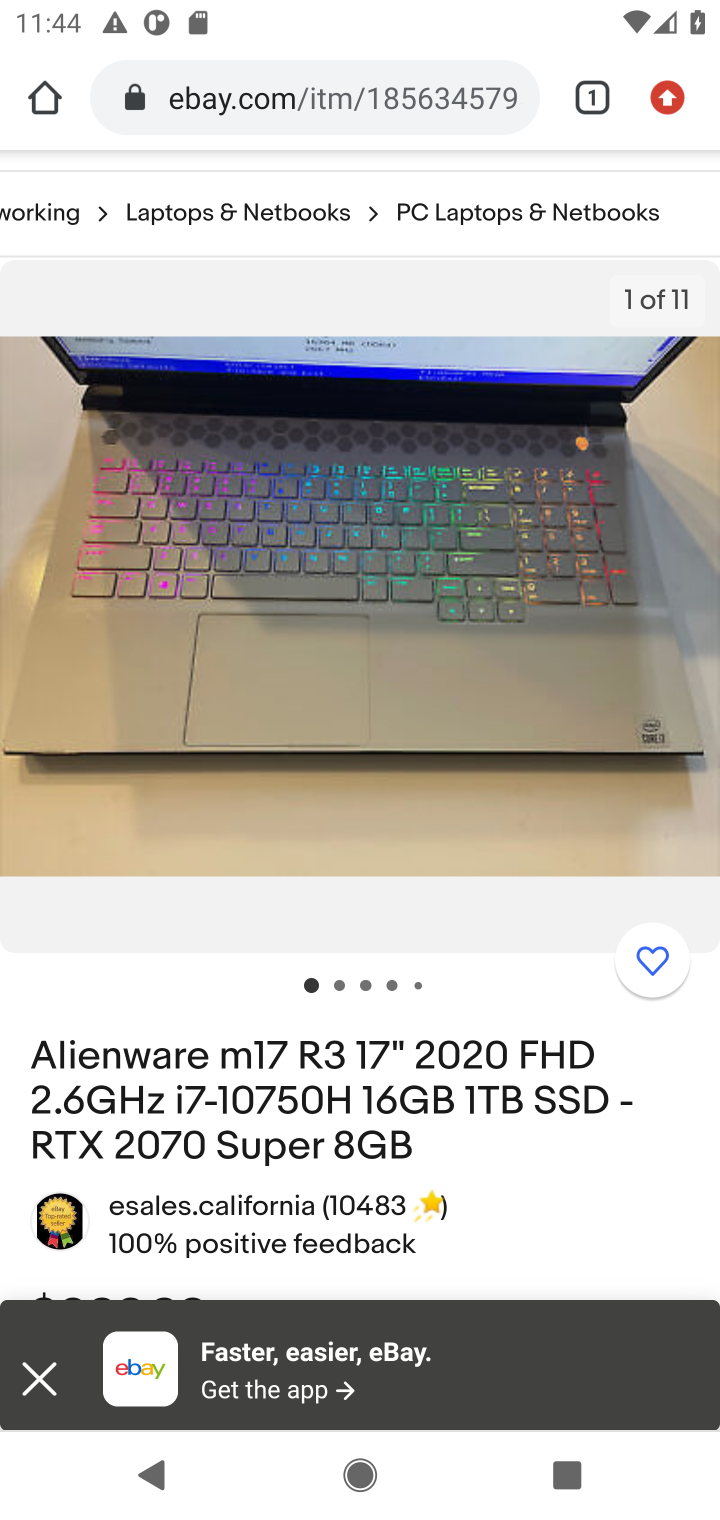
Step 29: drag from (488, 665) to (28, 656)
Your task to perform on an android device: Clear all items from cart on ebay.com. Add dell alienware to the cart on ebay.com Image 30: 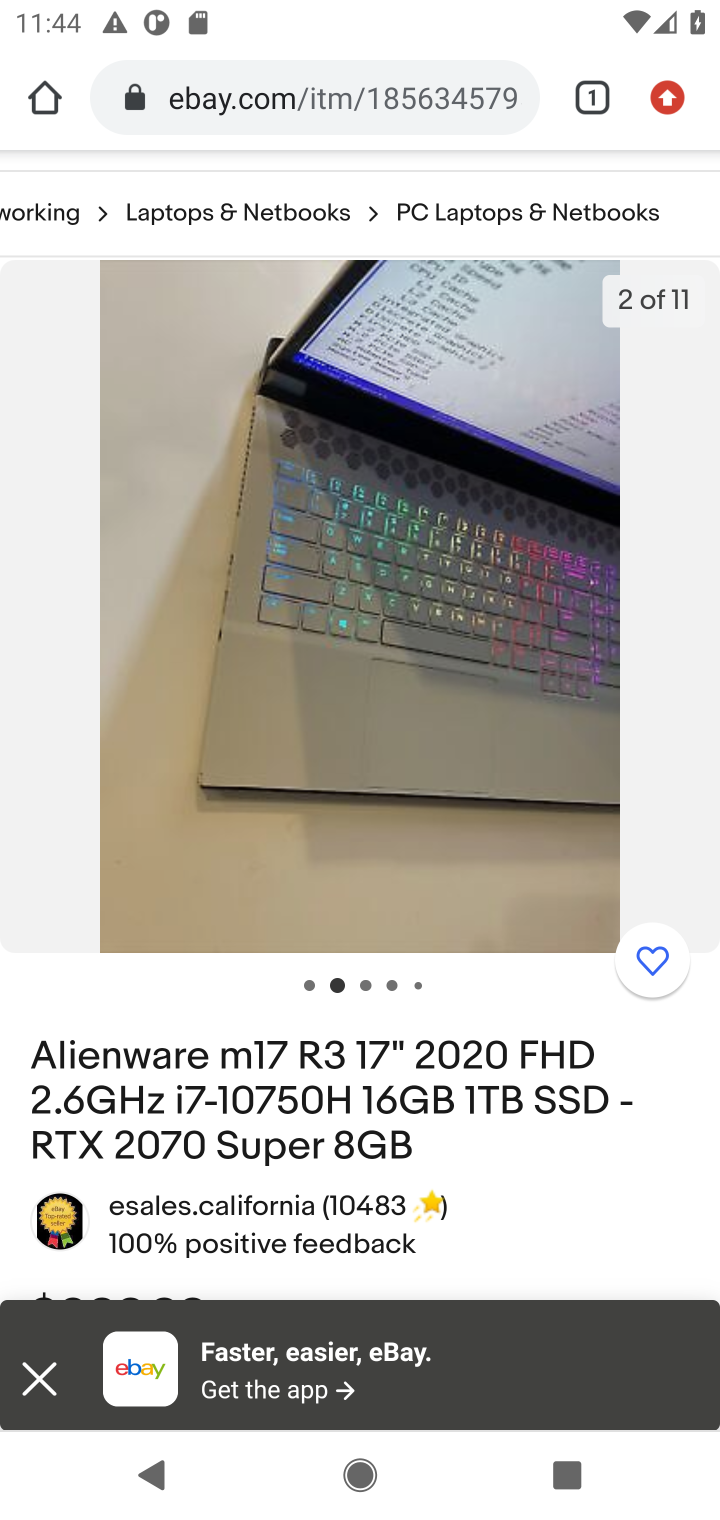
Step 30: drag from (522, 638) to (13, 646)
Your task to perform on an android device: Clear all items from cart on ebay.com. Add dell alienware to the cart on ebay.com Image 31: 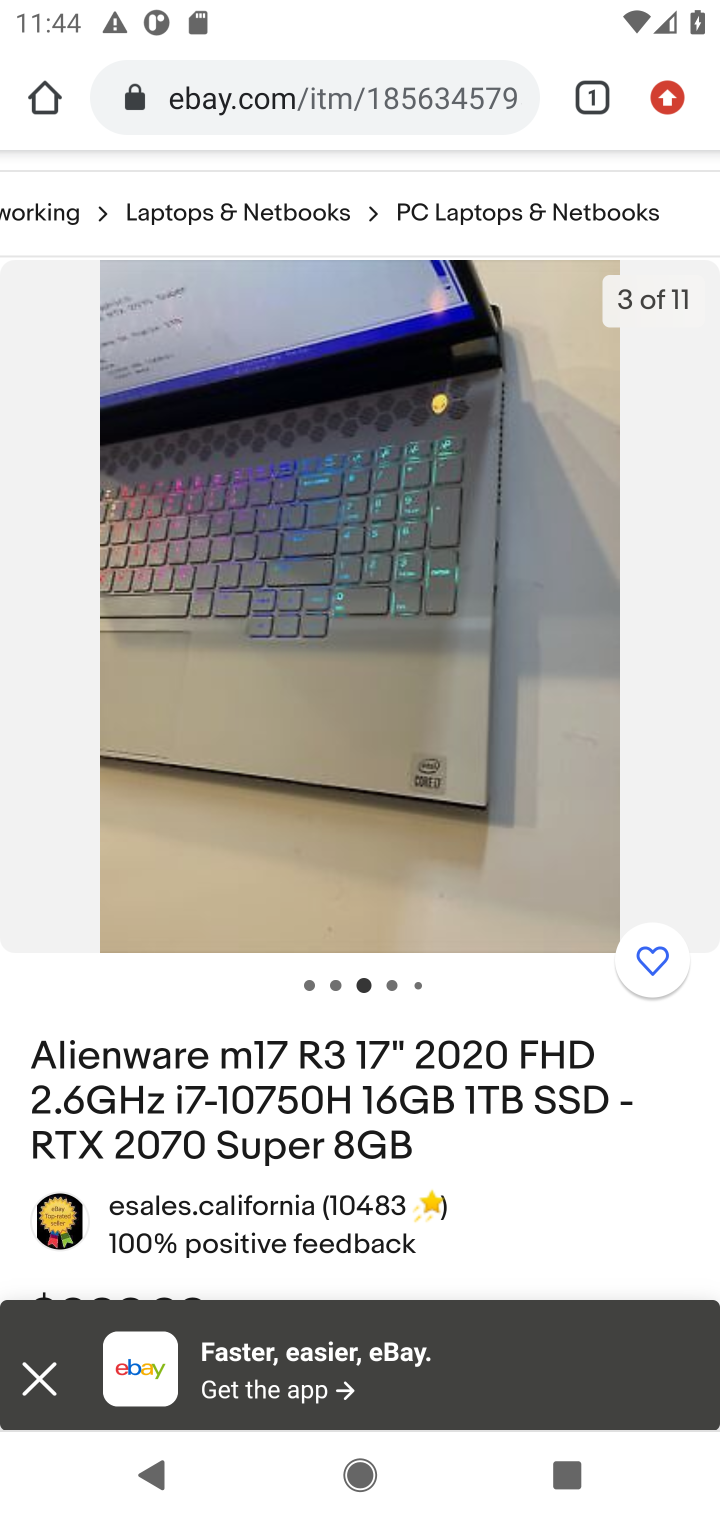
Step 31: drag from (417, 1083) to (417, 524)
Your task to perform on an android device: Clear all items from cart on ebay.com. Add dell alienware to the cart on ebay.com Image 32: 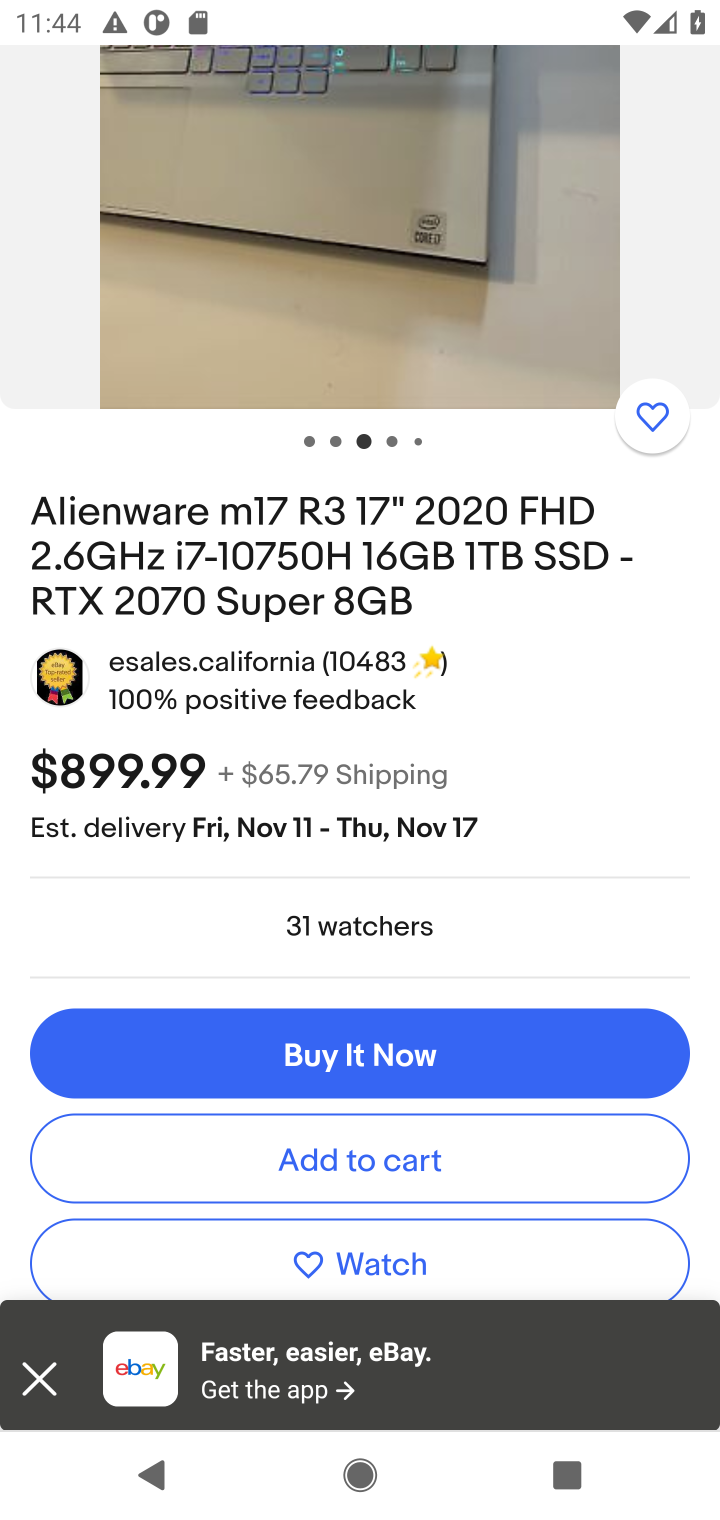
Step 32: click (334, 1158)
Your task to perform on an android device: Clear all items from cart on ebay.com. Add dell alienware to the cart on ebay.com Image 33: 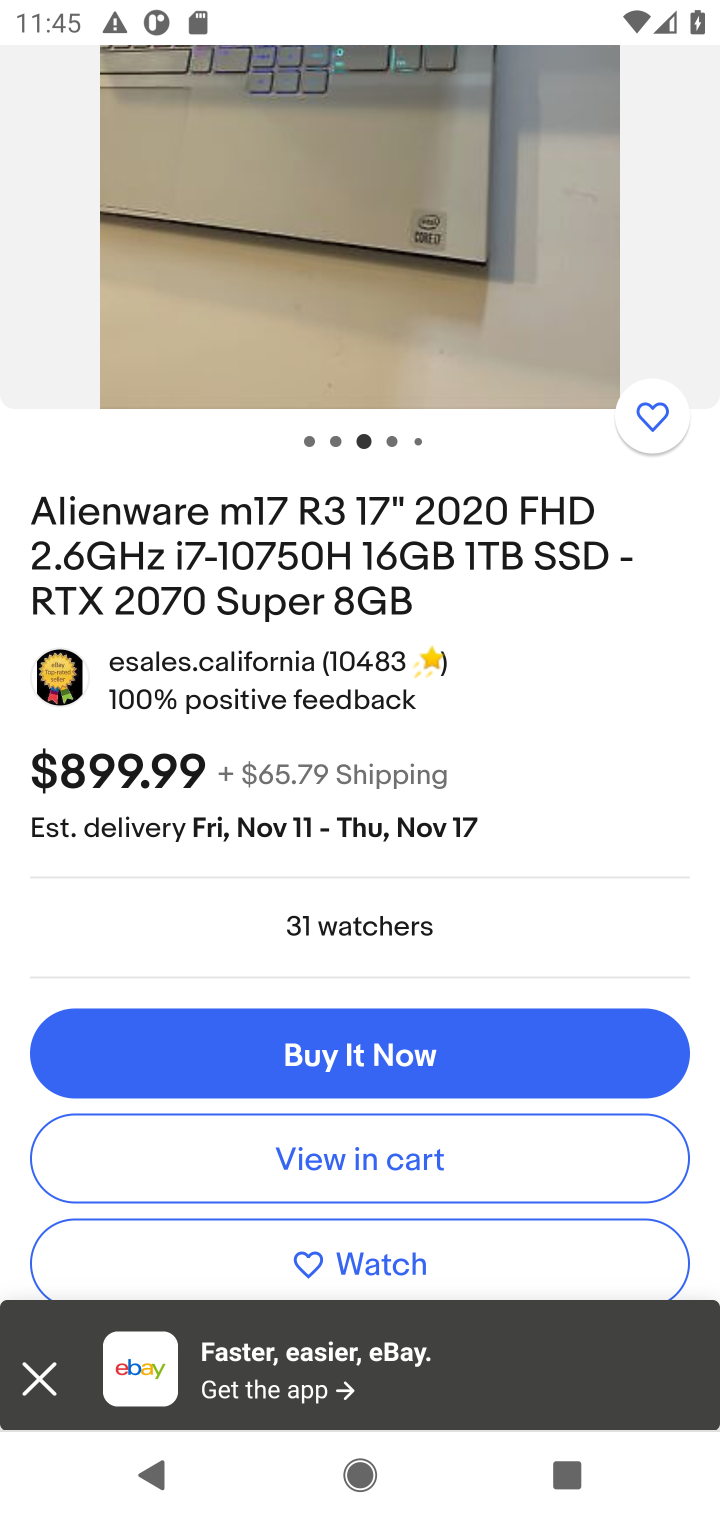
Step 33: task complete